Your task to perform on an android device: Add "apple airpods" to the cart on newegg Image 0: 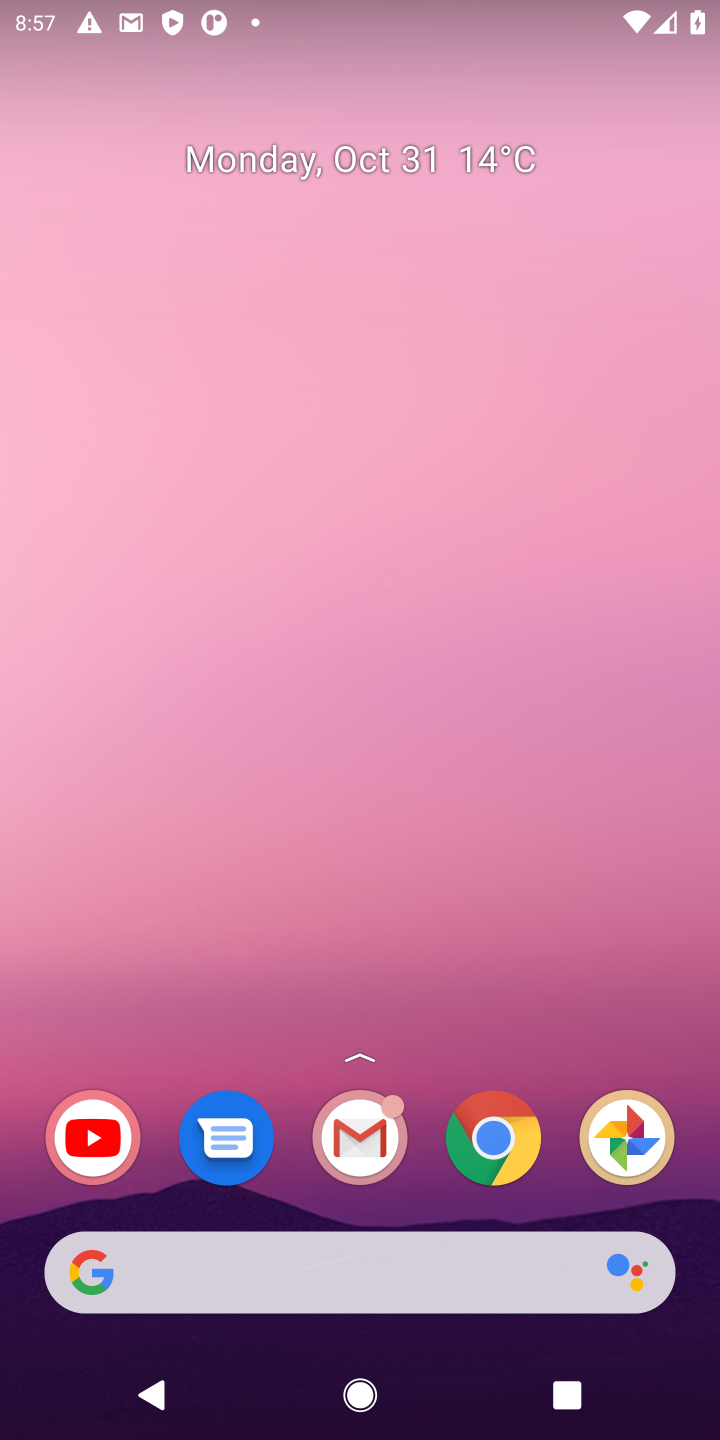
Step 0: click (494, 1150)
Your task to perform on an android device: Add "apple airpods" to the cart on newegg Image 1: 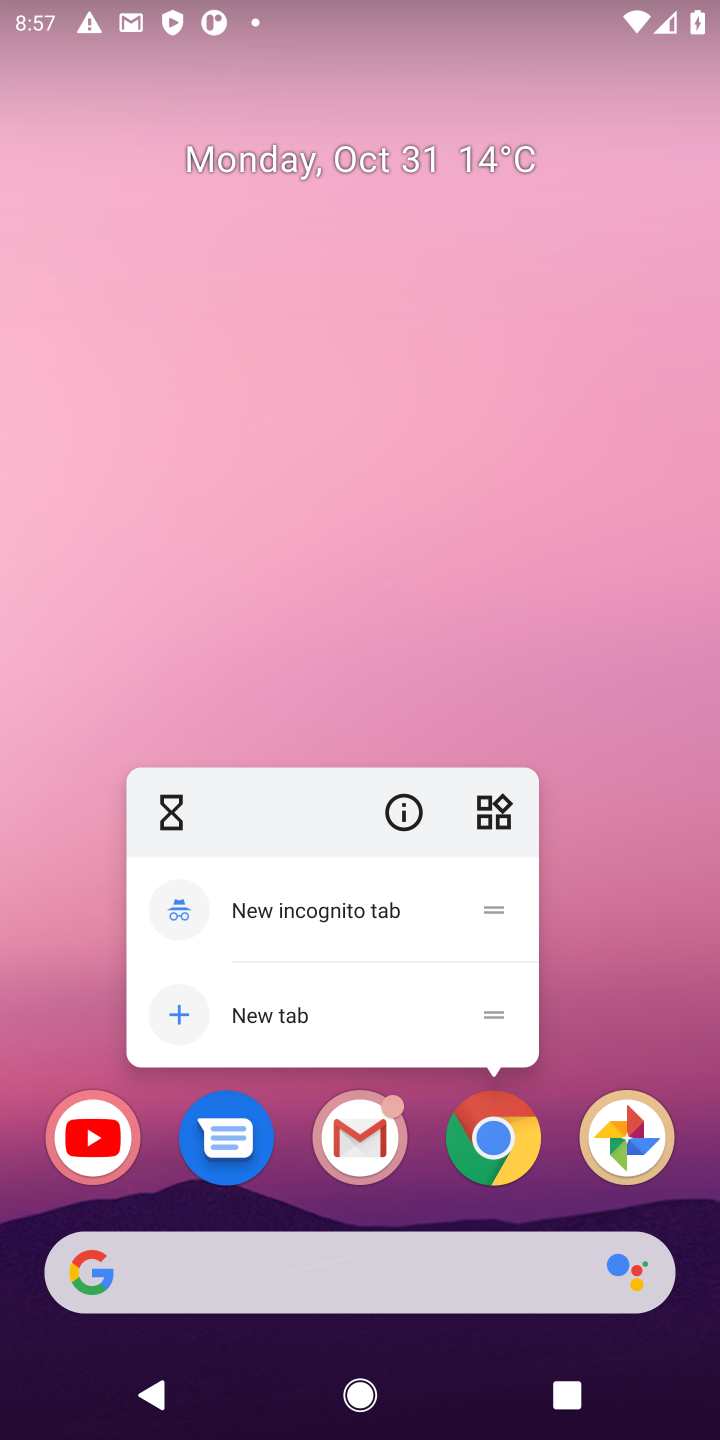
Step 1: click (496, 1135)
Your task to perform on an android device: Add "apple airpods" to the cart on newegg Image 2: 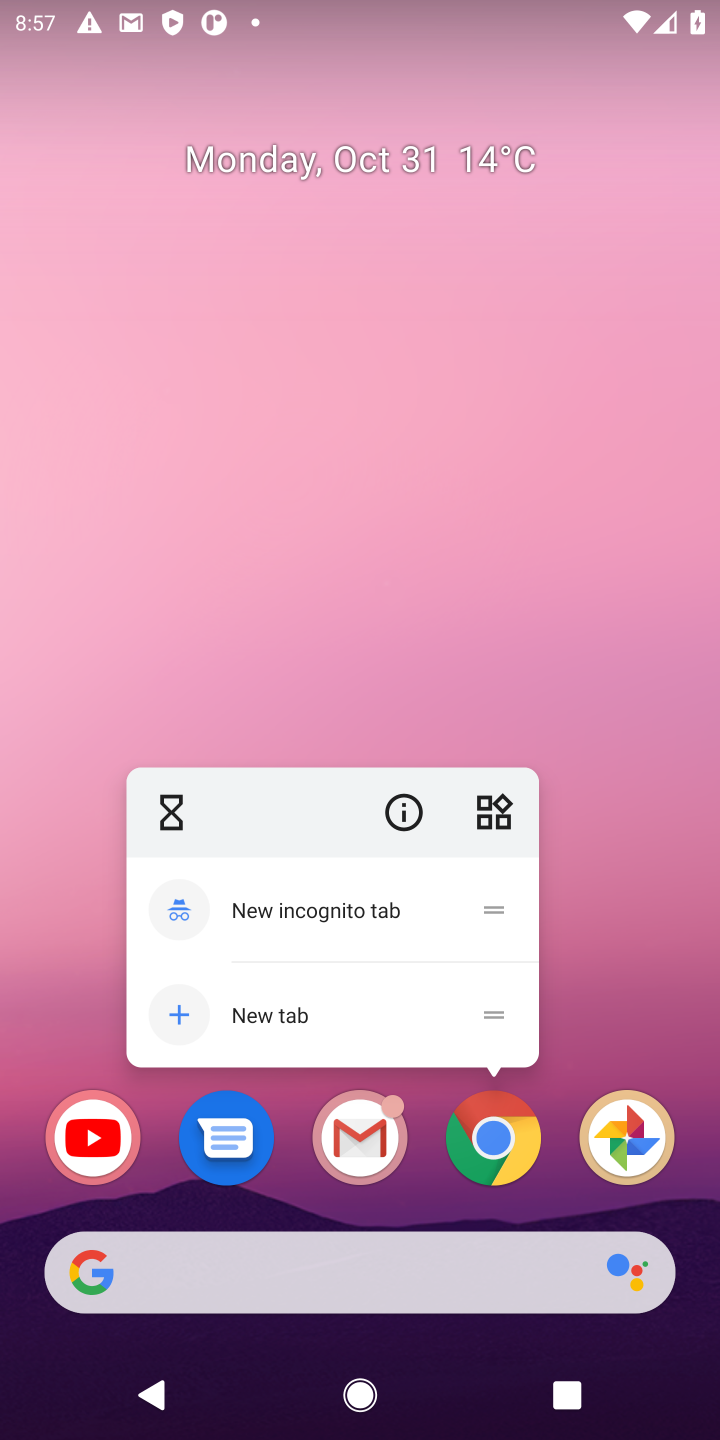
Step 2: click (505, 1119)
Your task to perform on an android device: Add "apple airpods" to the cart on newegg Image 3: 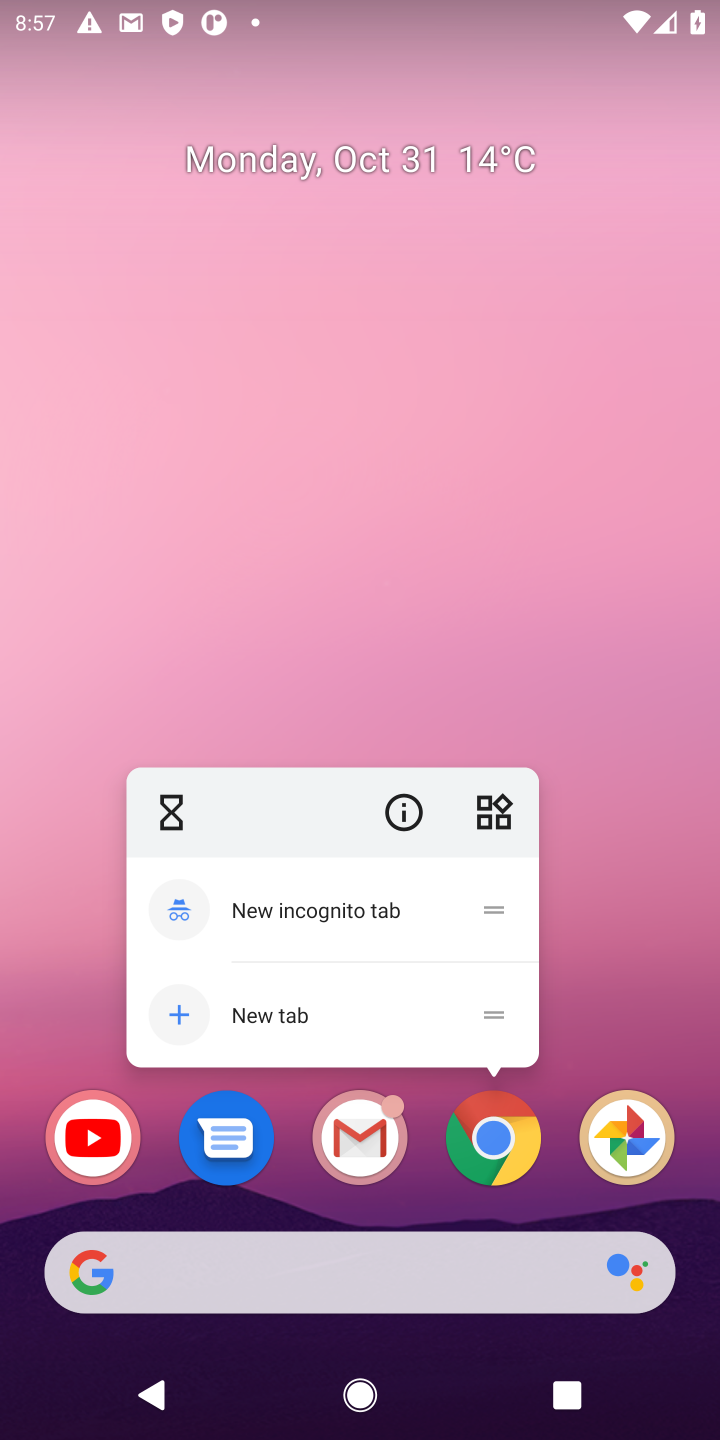
Step 3: press home button
Your task to perform on an android device: Add "apple airpods" to the cart on newegg Image 4: 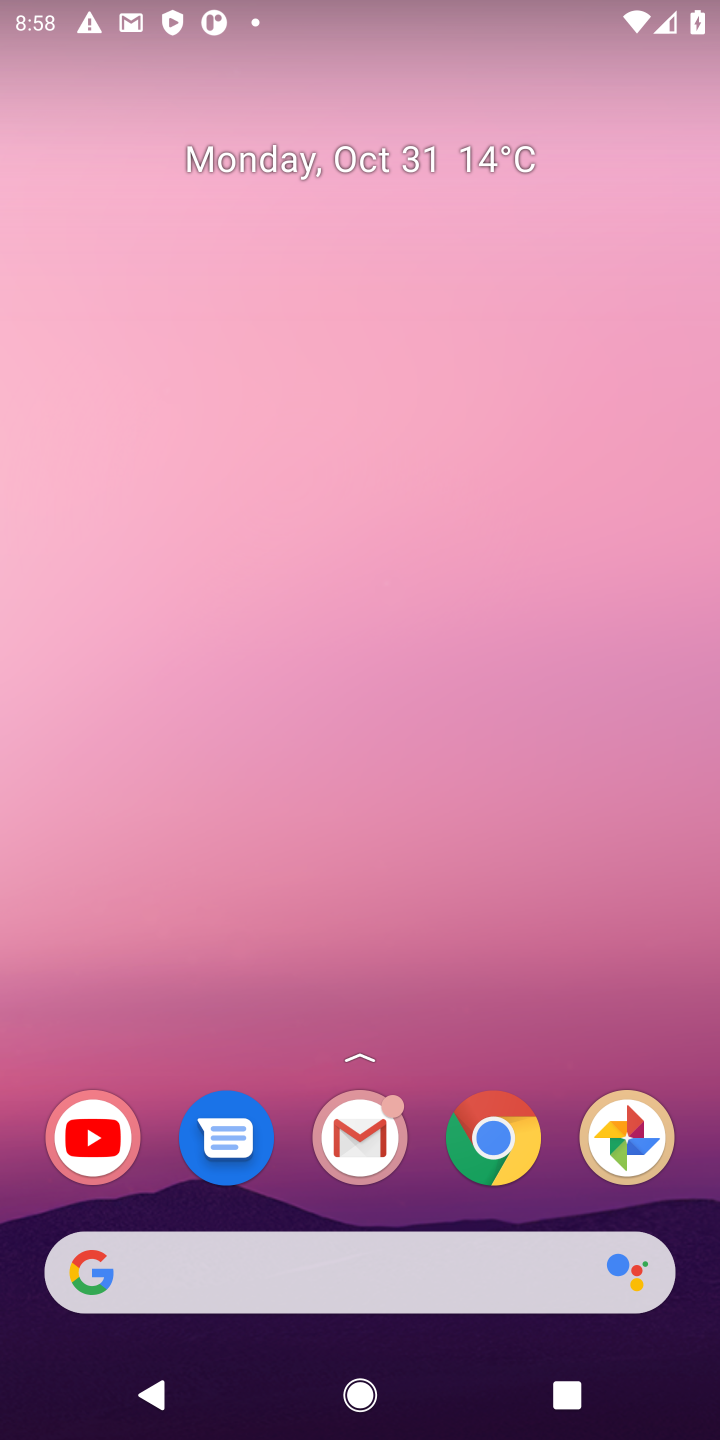
Step 4: press home button
Your task to perform on an android device: Add "apple airpods" to the cart on newegg Image 5: 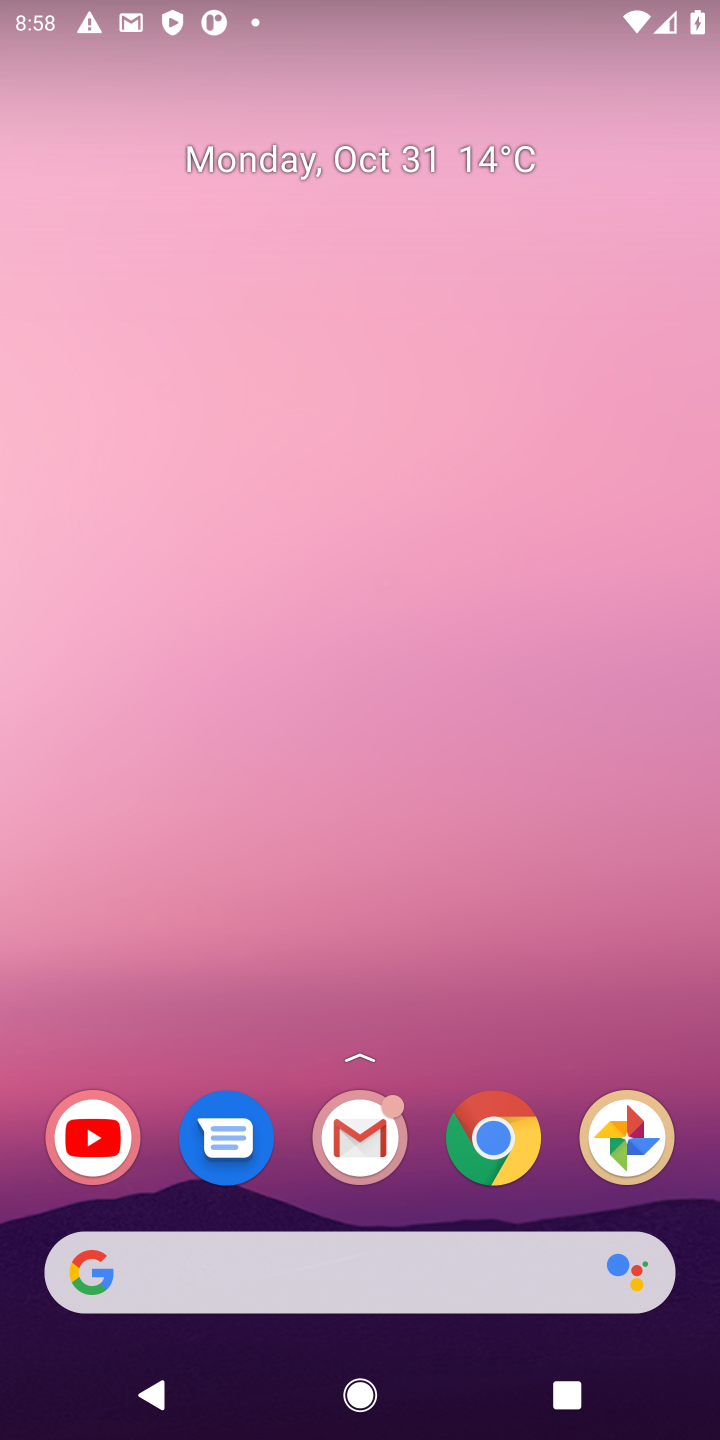
Step 5: click (480, 1148)
Your task to perform on an android device: Add "apple airpods" to the cart on newegg Image 6: 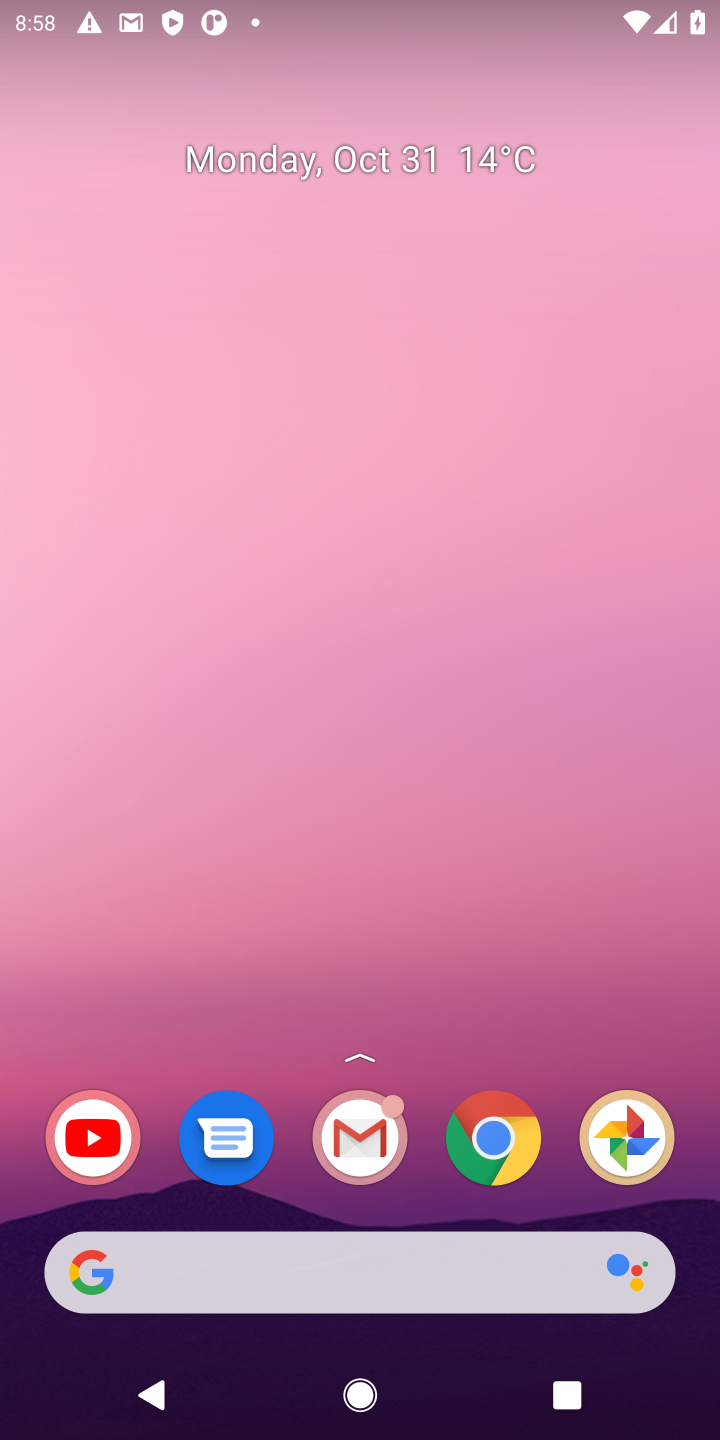
Step 6: click (482, 1142)
Your task to perform on an android device: Add "apple airpods" to the cart on newegg Image 7: 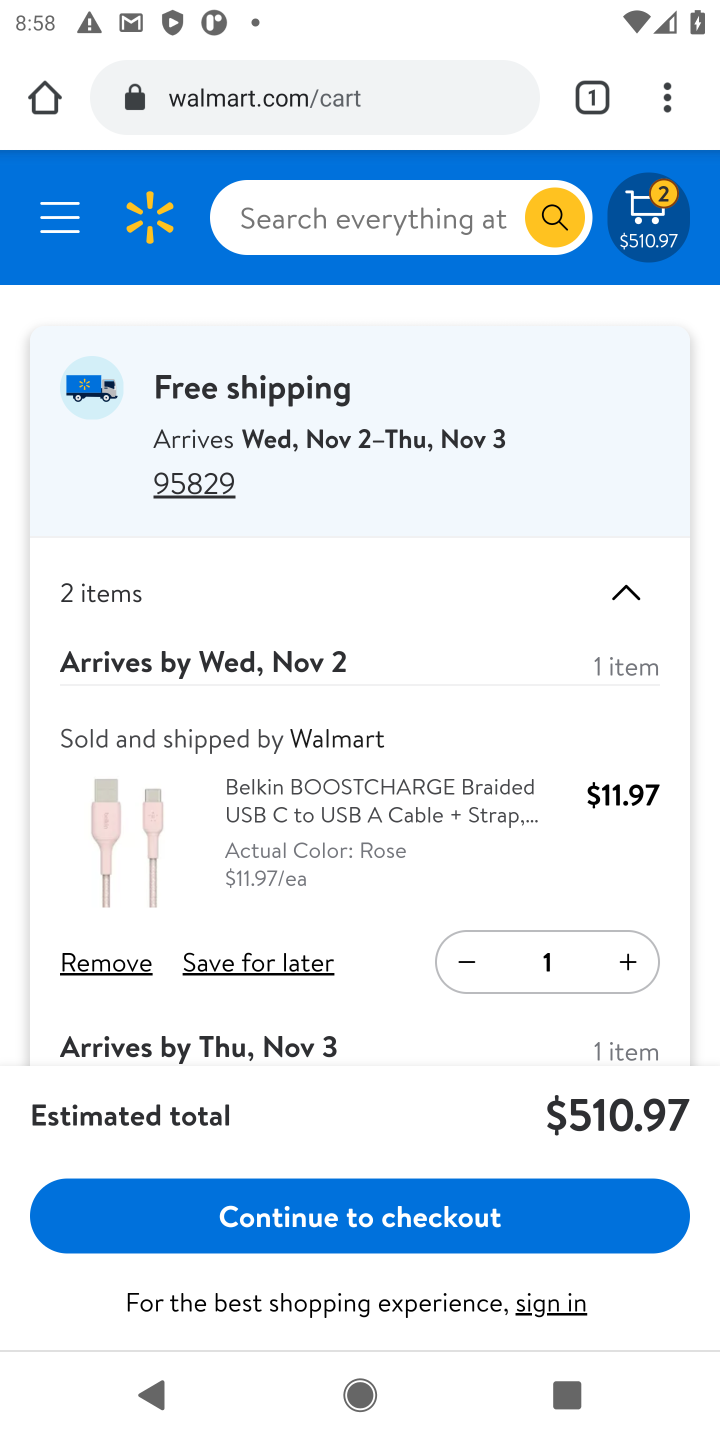
Step 7: click (298, 214)
Your task to perform on an android device: Add "apple airpods" to the cart on newegg Image 8: 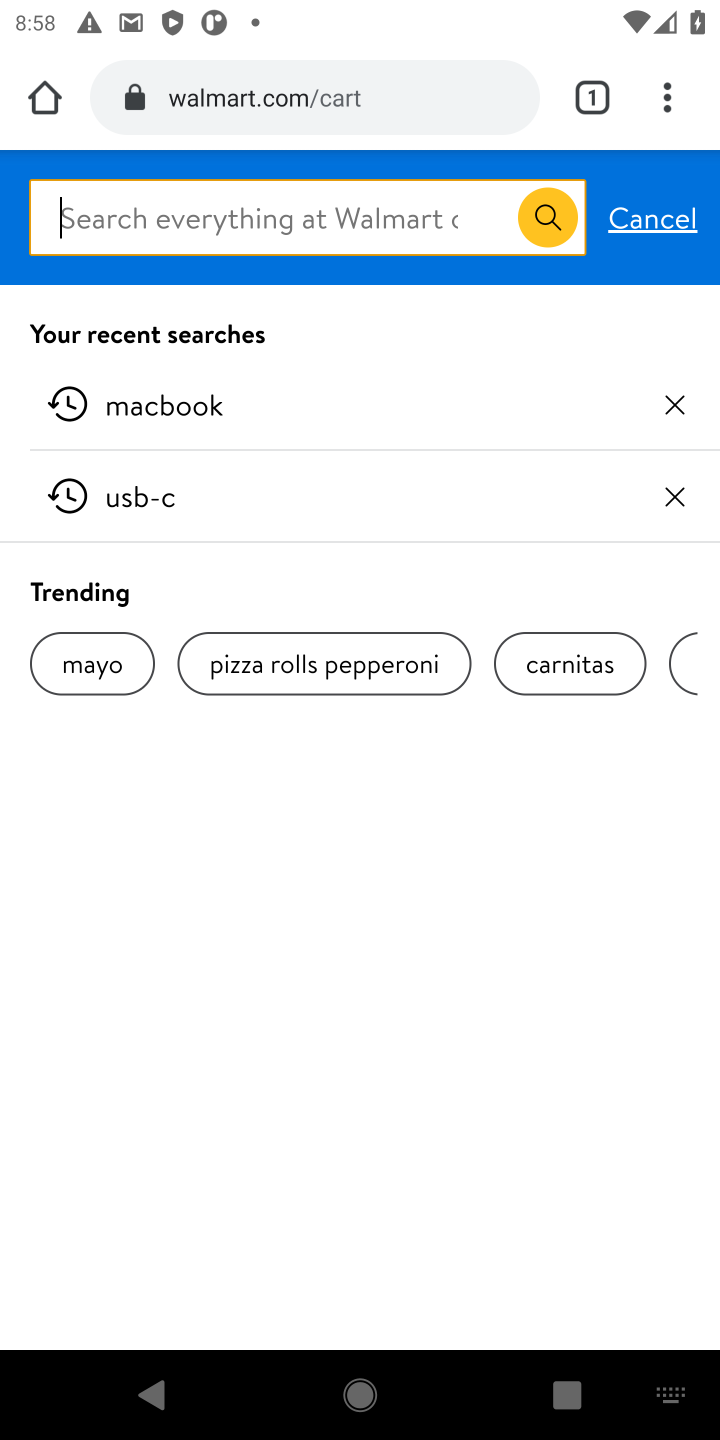
Step 8: click (262, 92)
Your task to perform on an android device: Add "apple airpods" to the cart on newegg Image 9: 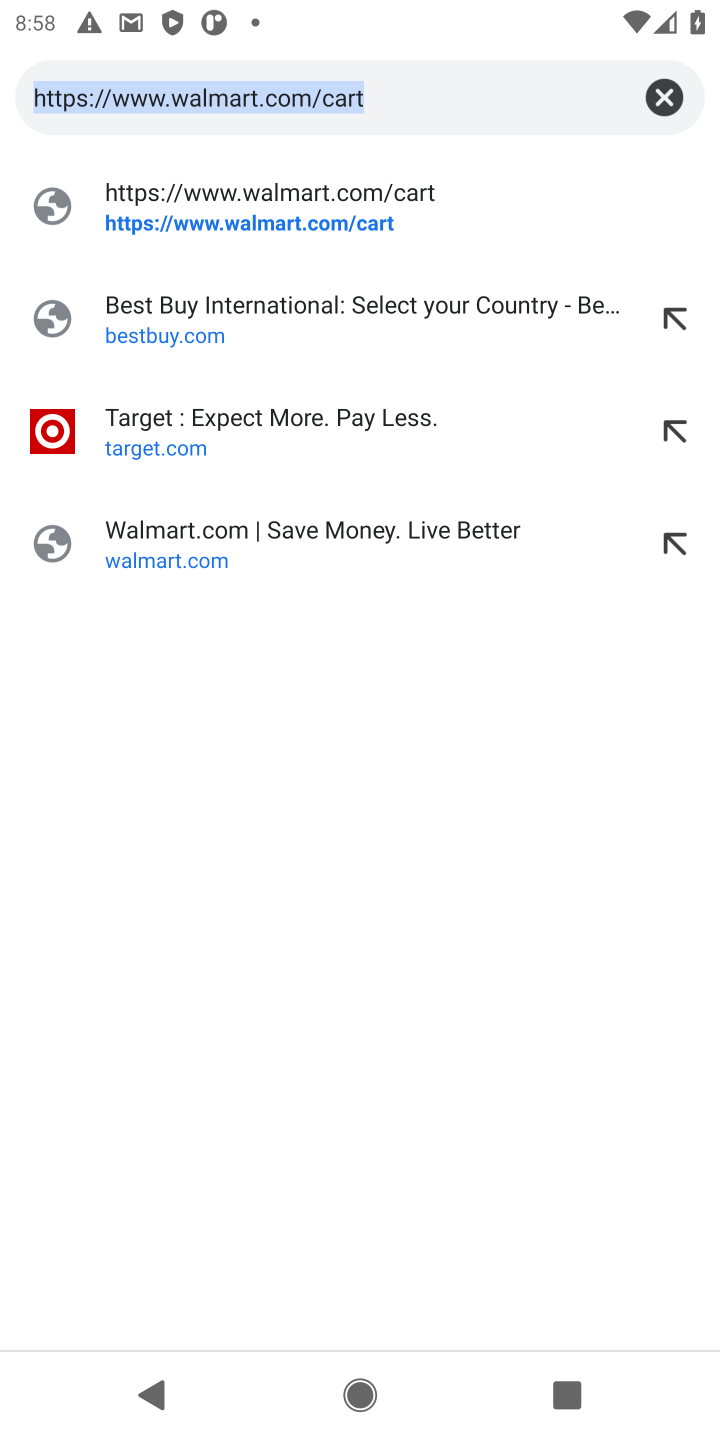
Step 9: click (663, 95)
Your task to perform on an android device: Add "apple airpods" to the cart on newegg Image 10: 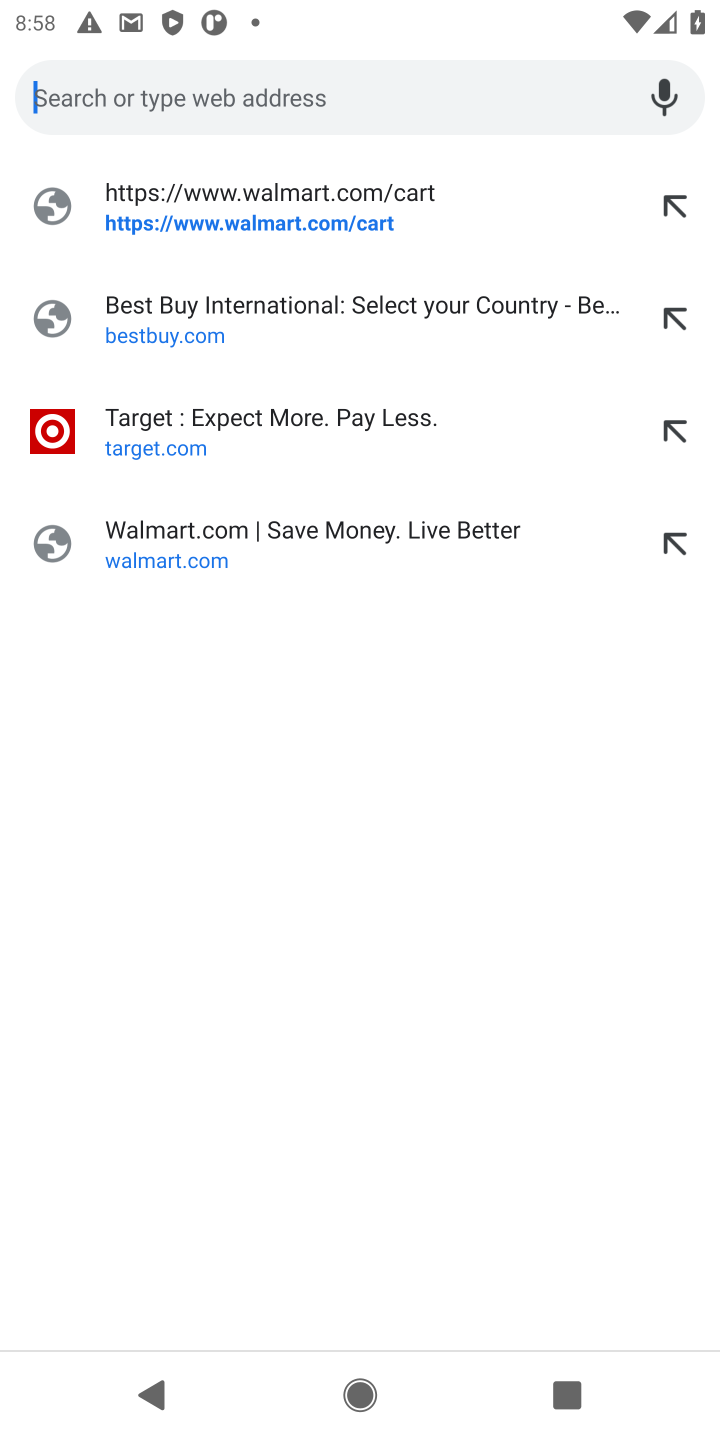
Step 10: type "newegg"
Your task to perform on an android device: Add "apple airpods" to the cart on newegg Image 11: 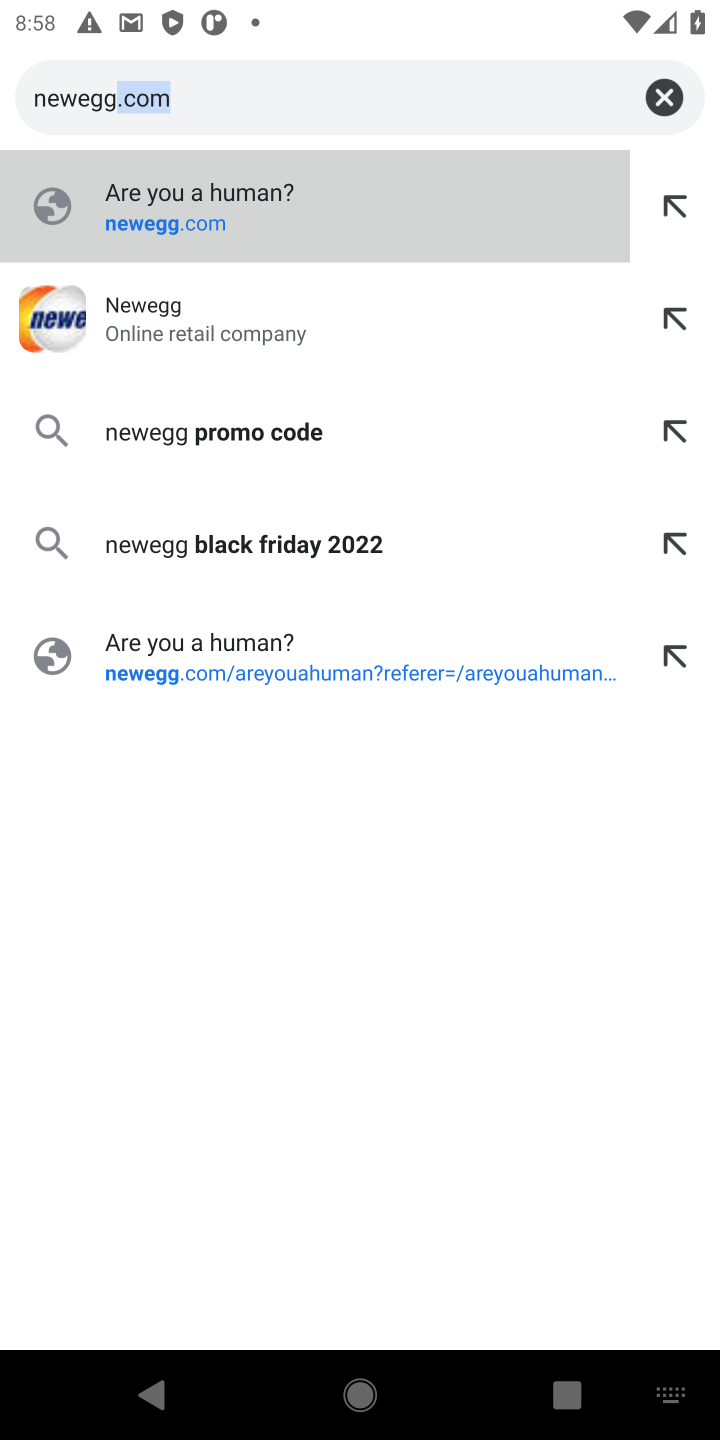
Step 11: click (137, 319)
Your task to perform on an android device: Add "apple airpods" to the cart on newegg Image 12: 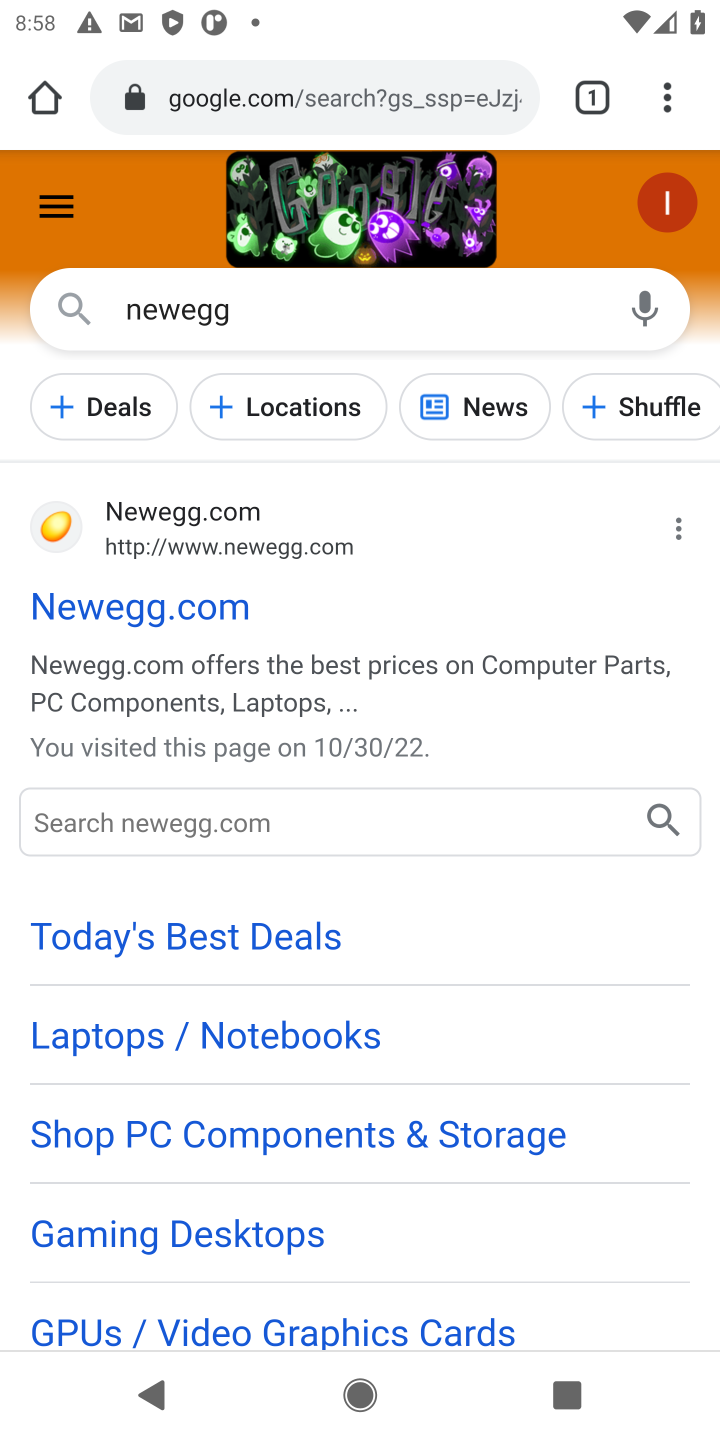
Step 12: click (132, 612)
Your task to perform on an android device: Add "apple airpods" to the cart on newegg Image 13: 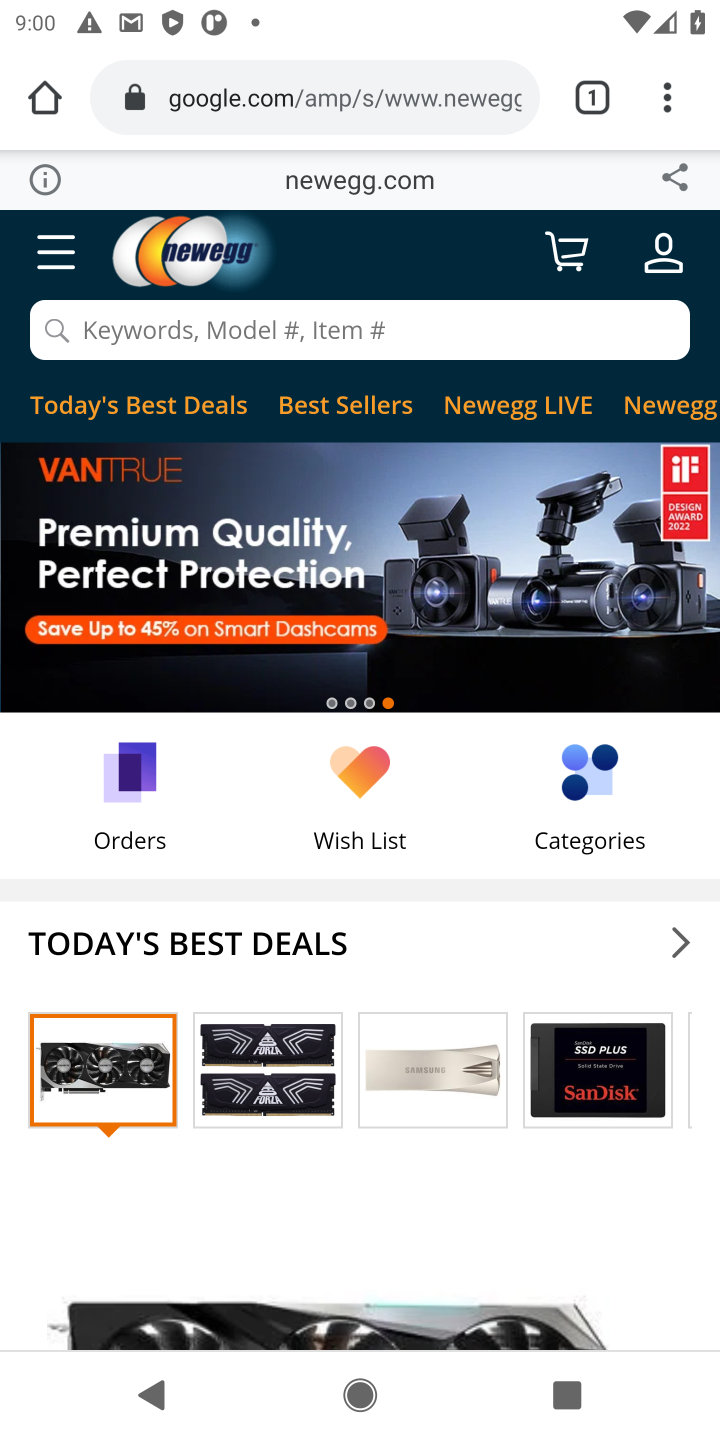
Step 13: click (260, 327)
Your task to perform on an android device: Add "apple airpods" to the cart on newegg Image 14: 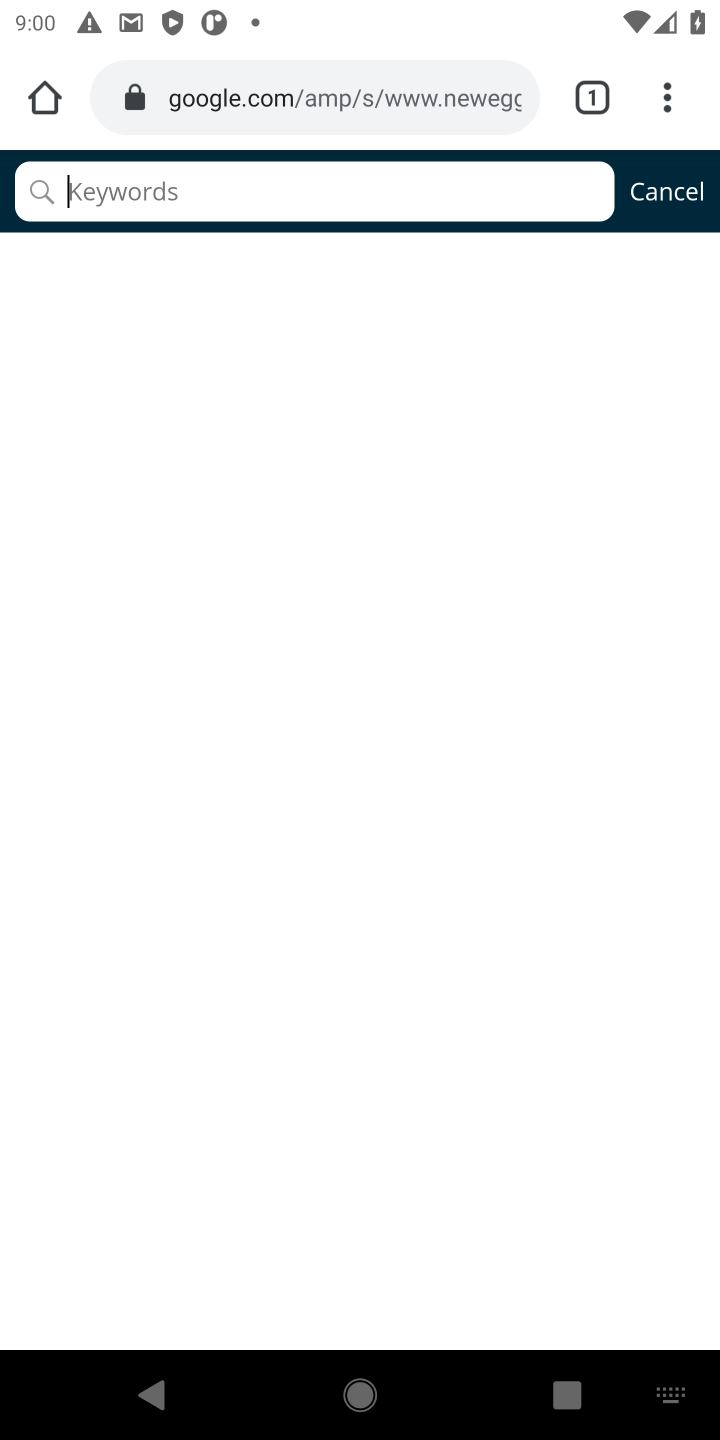
Step 14: type "apple airpods"
Your task to perform on an android device: Add "apple airpods" to the cart on newegg Image 15: 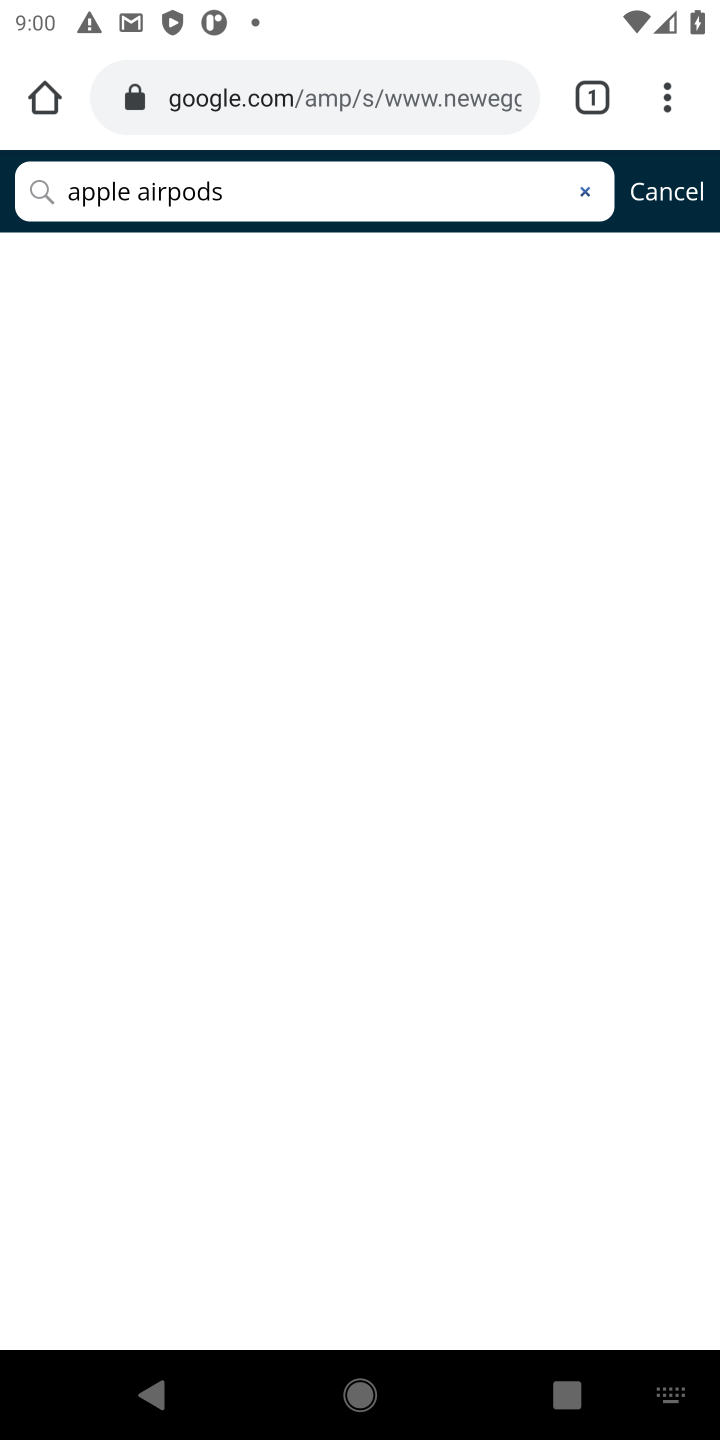
Step 15: press back button
Your task to perform on an android device: Add "apple airpods" to the cart on newegg Image 16: 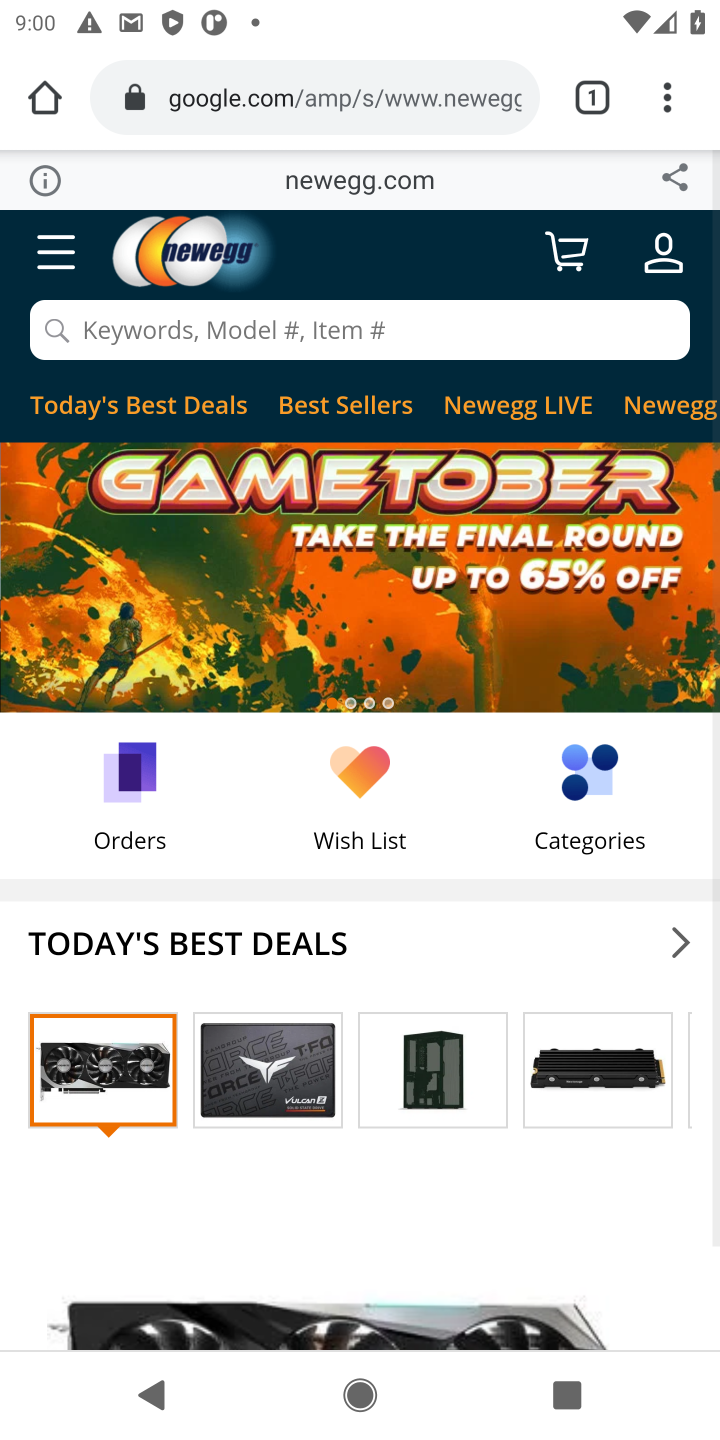
Step 16: click (137, 320)
Your task to perform on an android device: Add "apple airpods" to the cart on newegg Image 17: 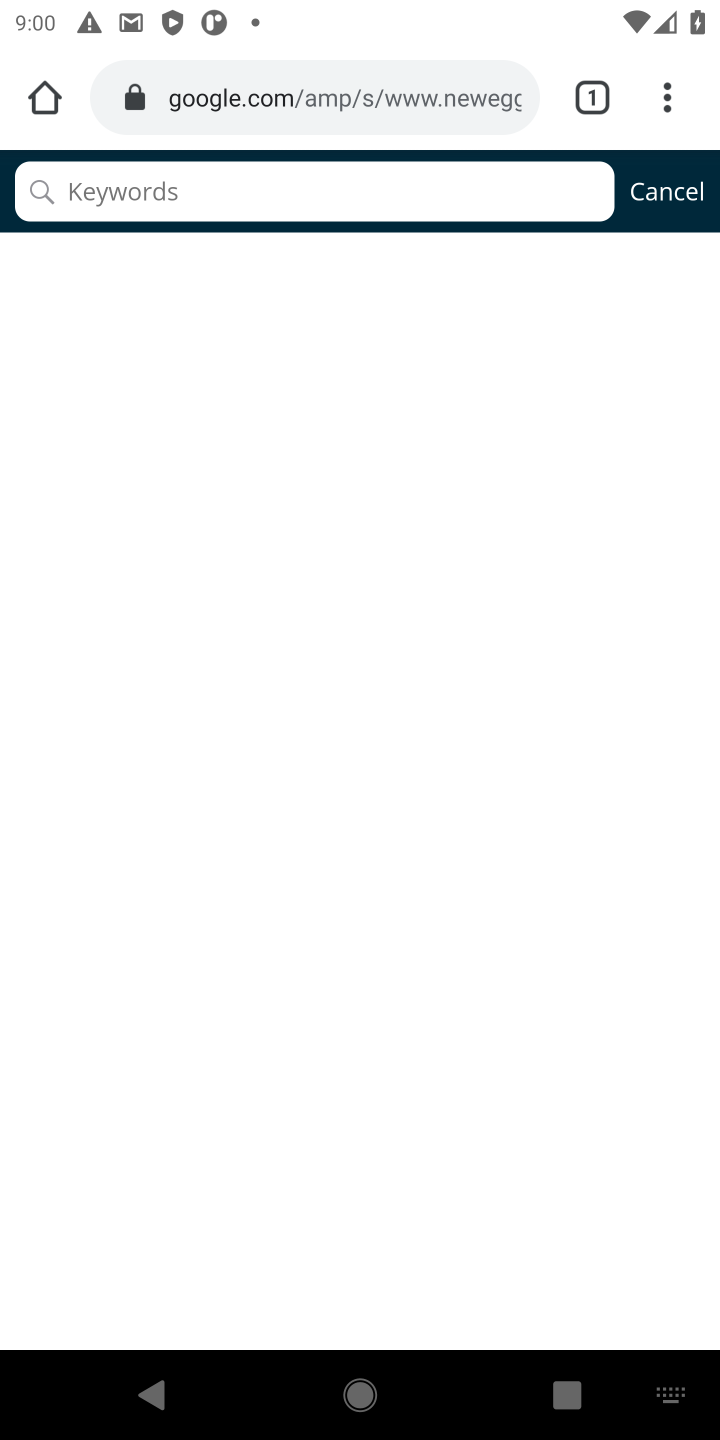
Step 17: type "apple  ai`"
Your task to perform on an android device: Add "apple airpods" to the cart on newegg Image 18: 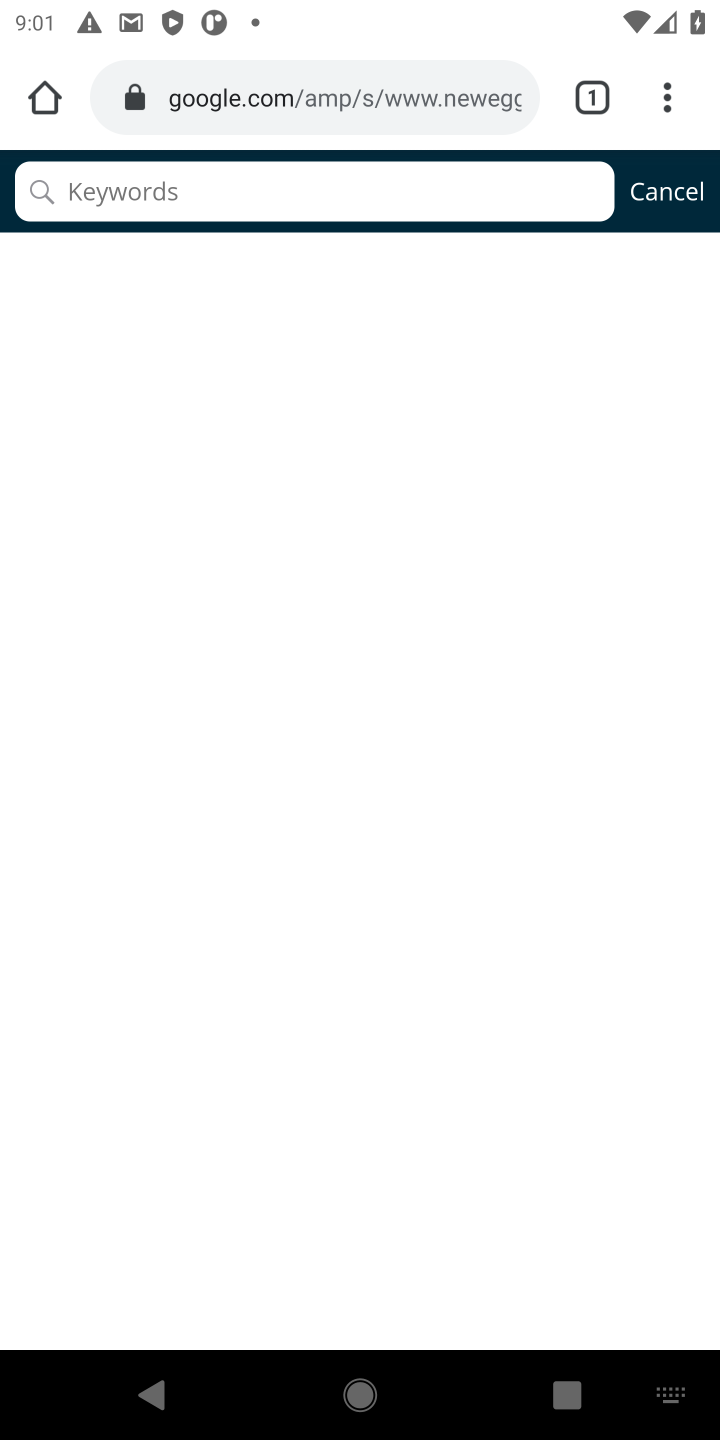
Step 18: type "apple airpods"
Your task to perform on an android device: Add "apple airpods" to the cart on newegg Image 19: 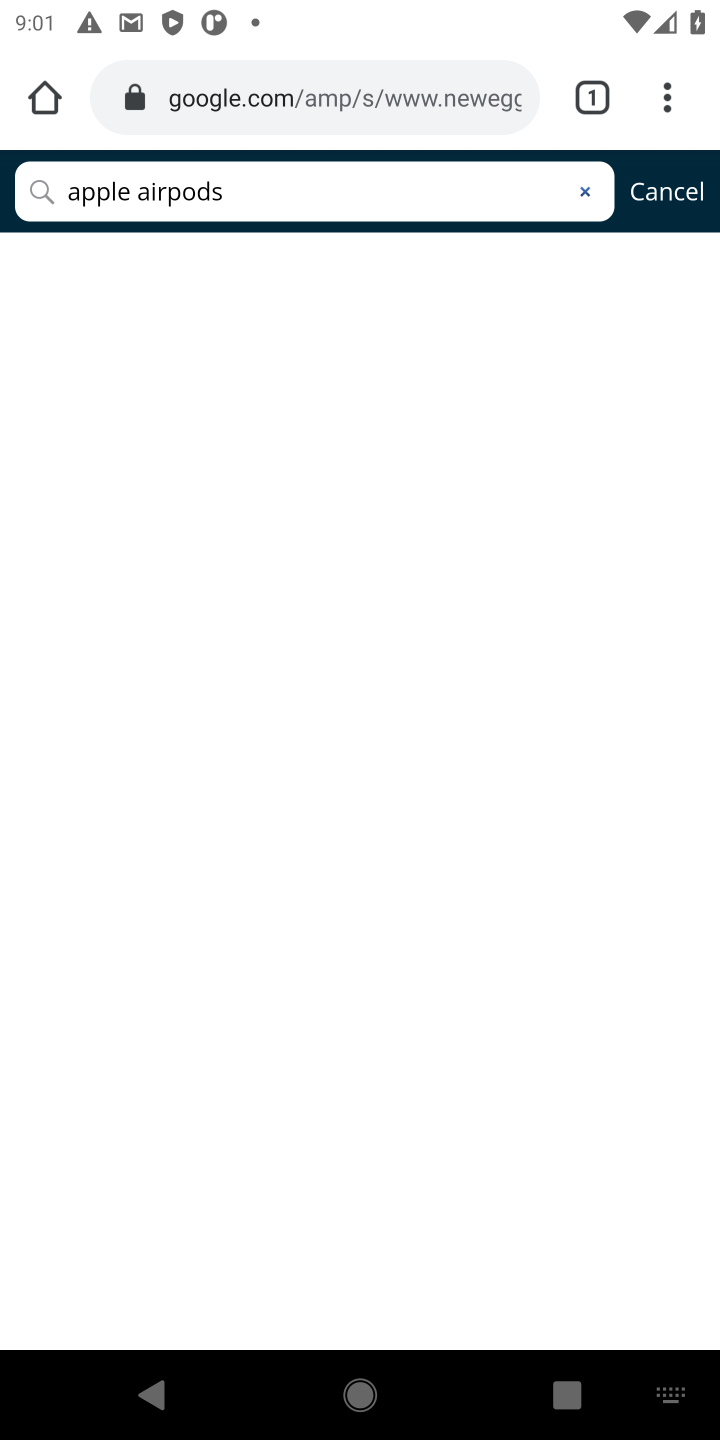
Step 19: click (449, 196)
Your task to perform on an android device: Add "apple airpods" to the cart on newegg Image 20: 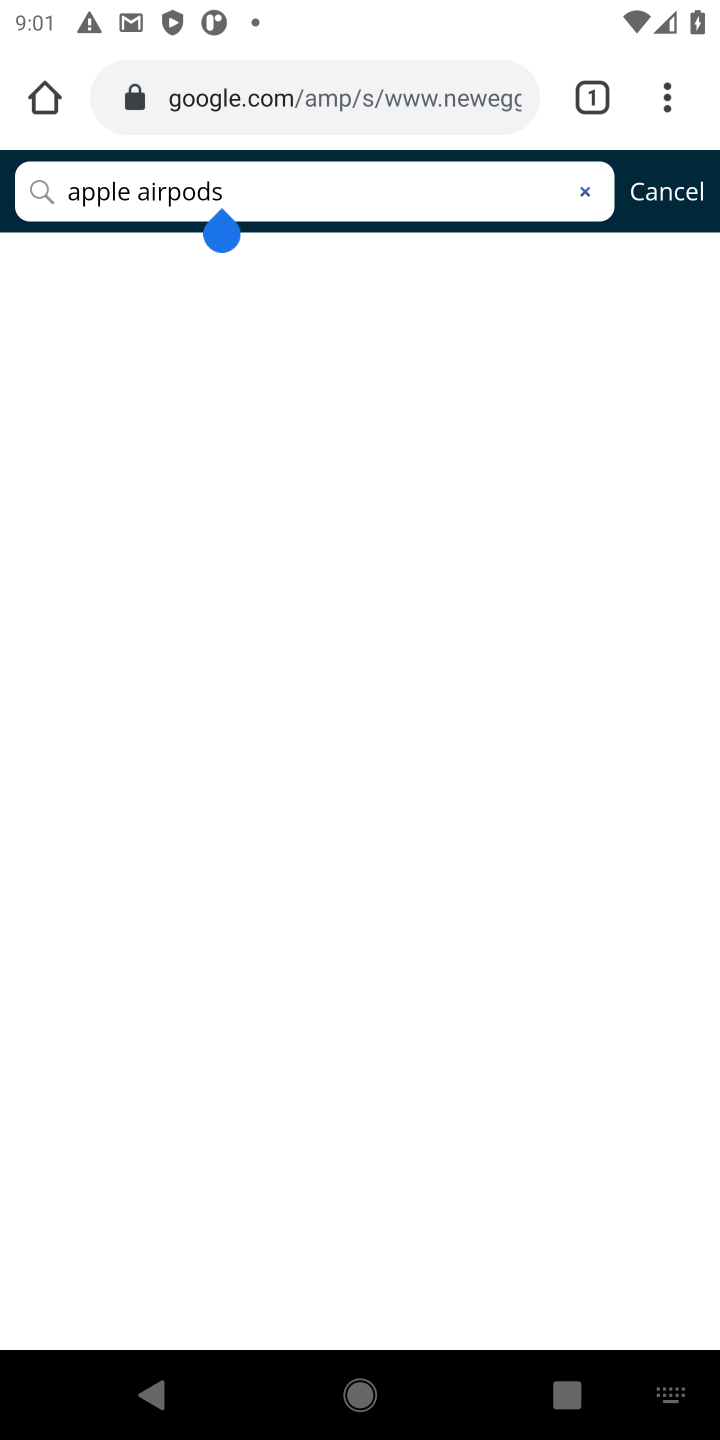
Step 20: click (428, 194)
Your task to perform on an android device: Add "apple airpods" to the cart on newegg Image 21: 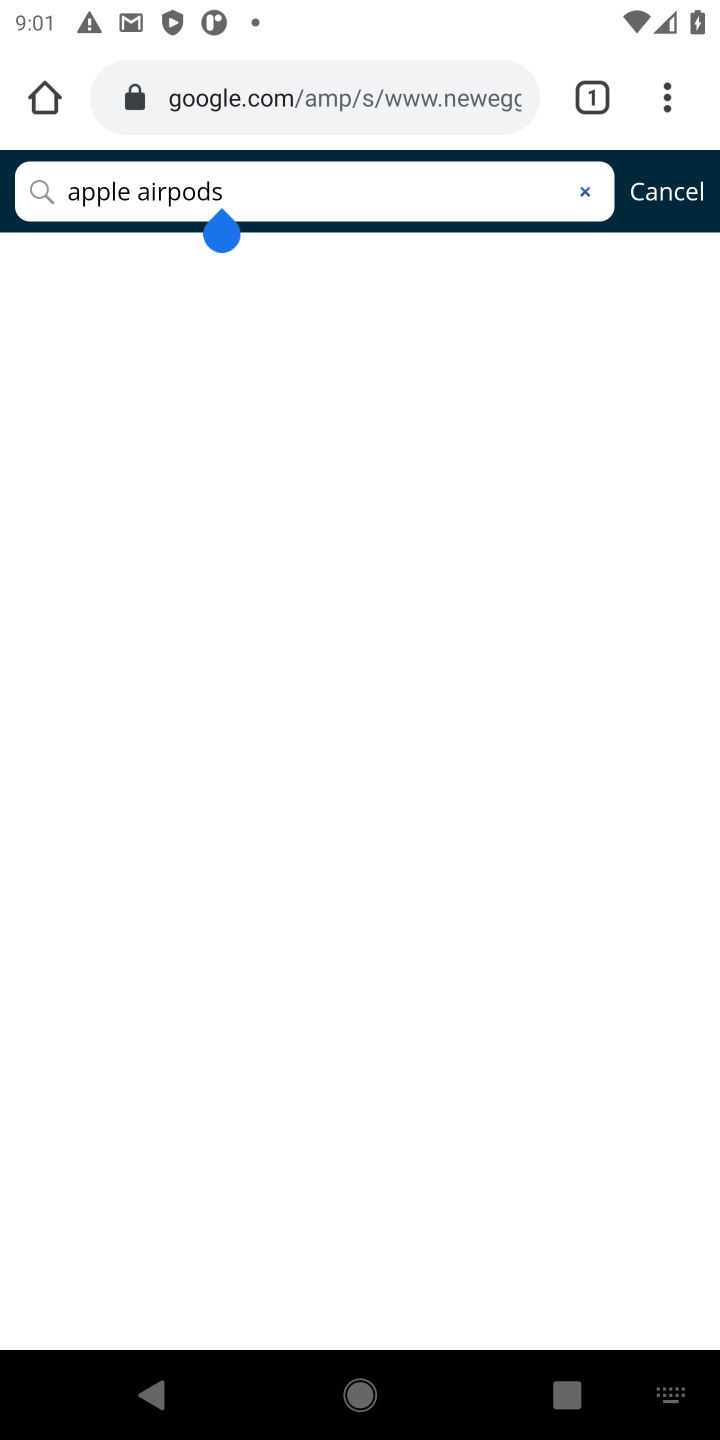
Step 21: press back button
Your task to perform on an android device: Add "apple airpods" to the cart on newegg Image 22: 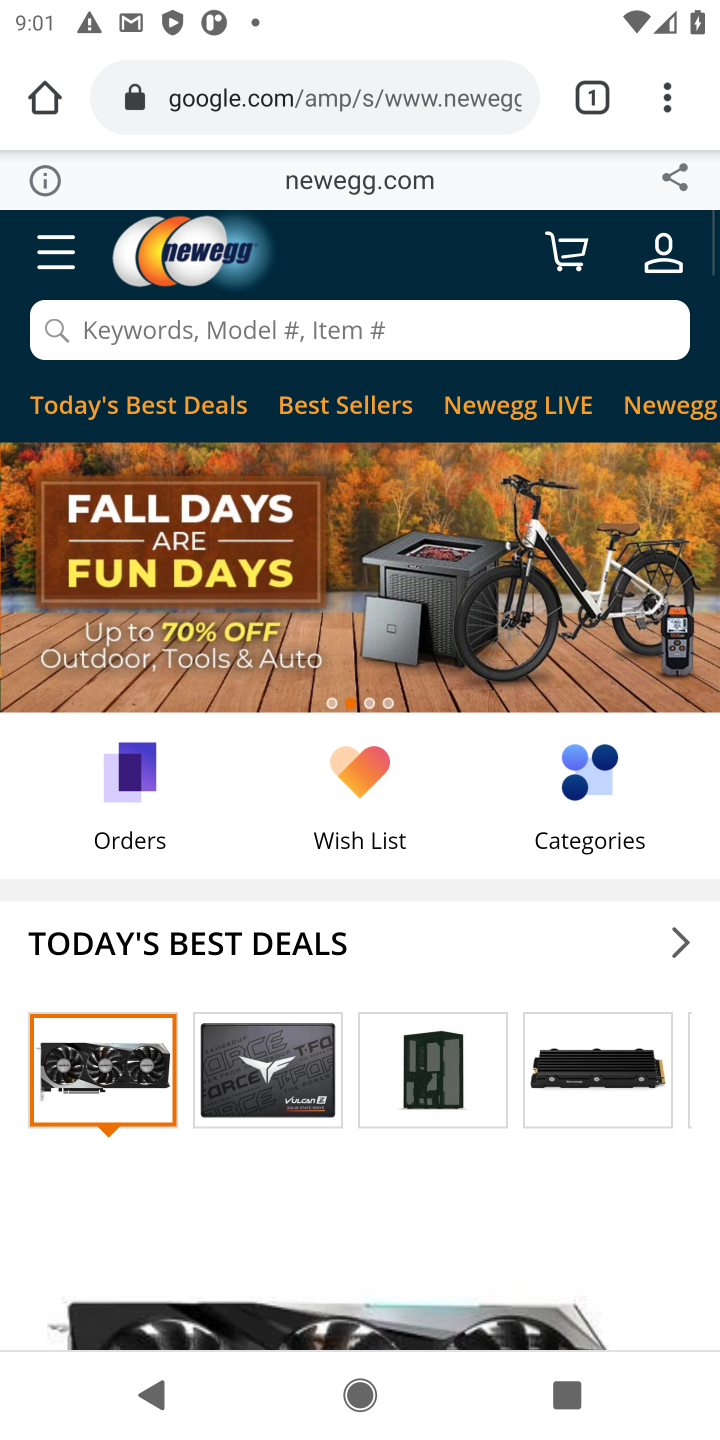
Step 22: drag from (377, 976) to (343, 507)
Your task to perform on an android device: Add "apple airpods" to the cart on newegg Image 23: 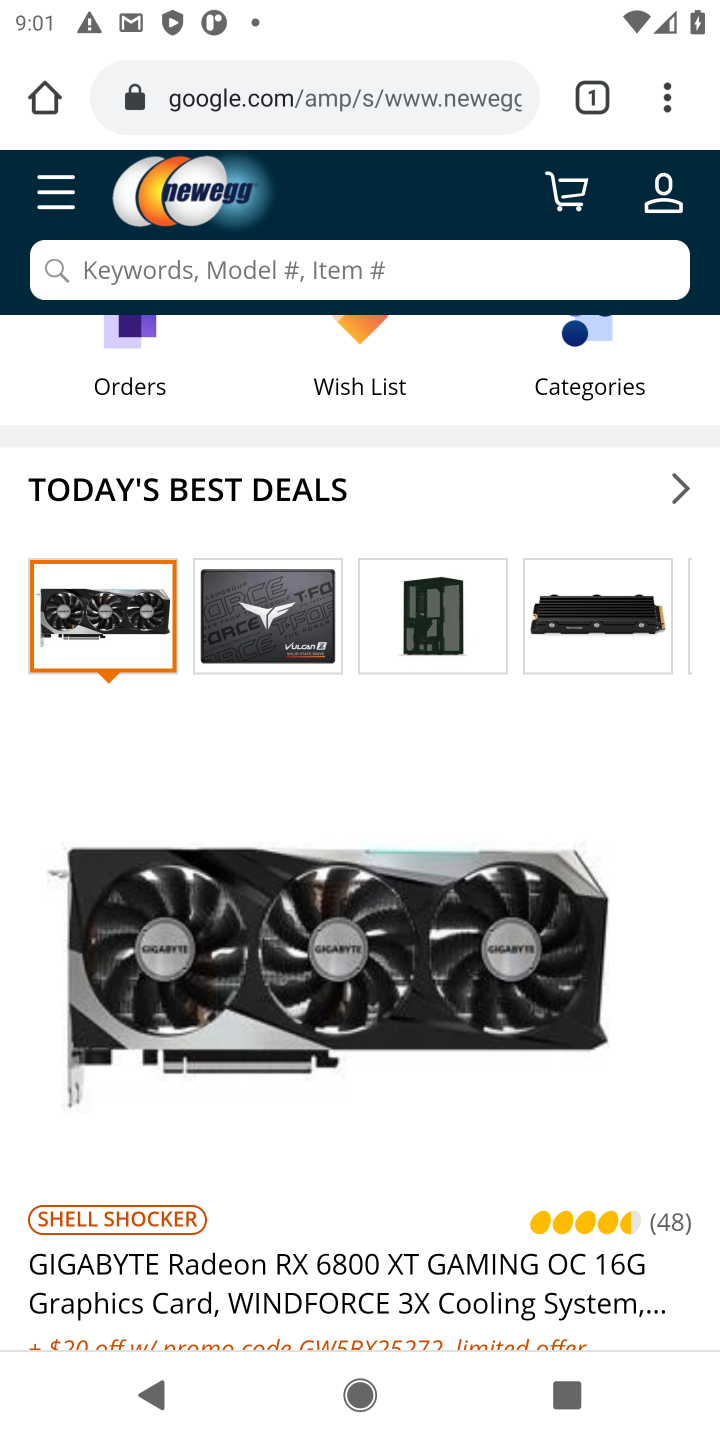
Step 23: press back button
Your task to perform on an android device: Add "apple airpods" to the cart on newegg Image 24: 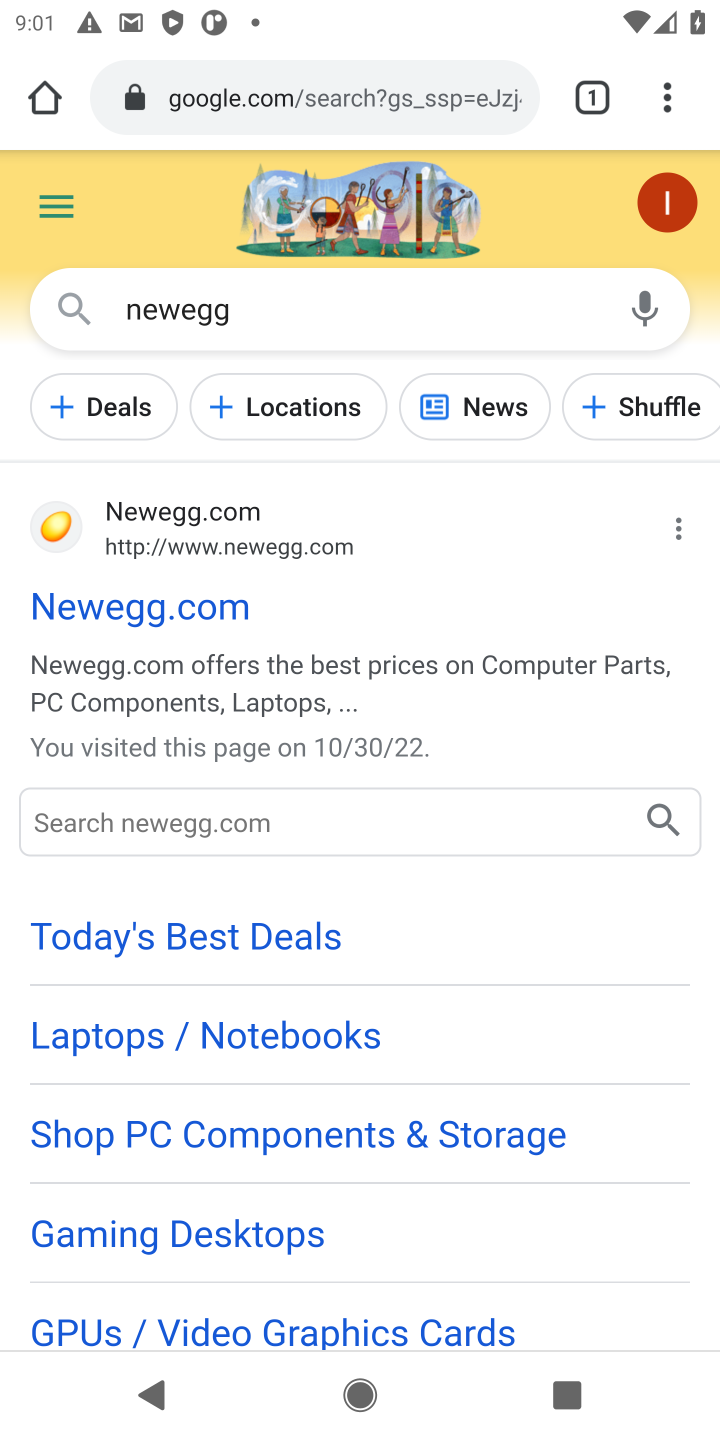
Step 24: drag from (409, 1094) to (437, 446)
Your task to perform on an android device: Add "apple airpods" to the cart on newegg Image 25: 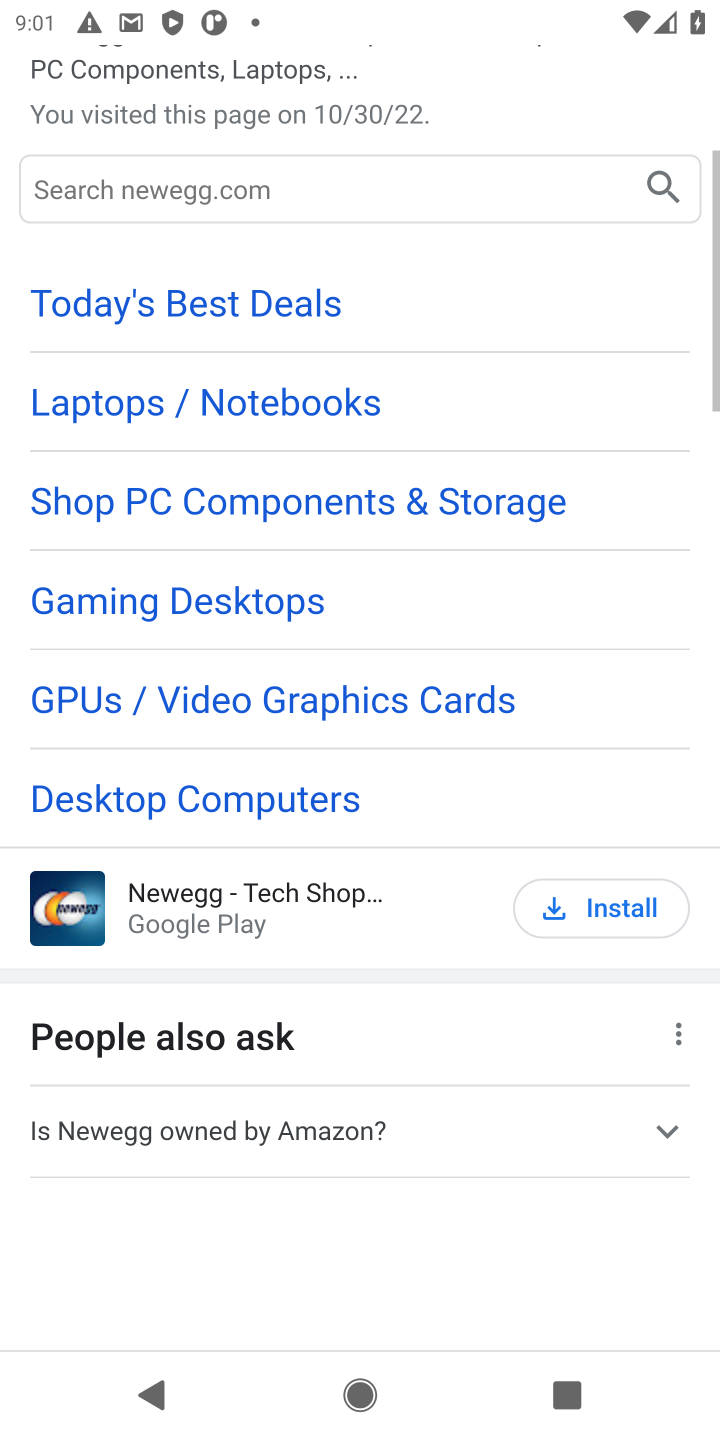
Step 25: drag from (186, 1024) to (181, 616)
Your task to perform on an android device: Add "apple airpods" to the cart on newegg Image 26: 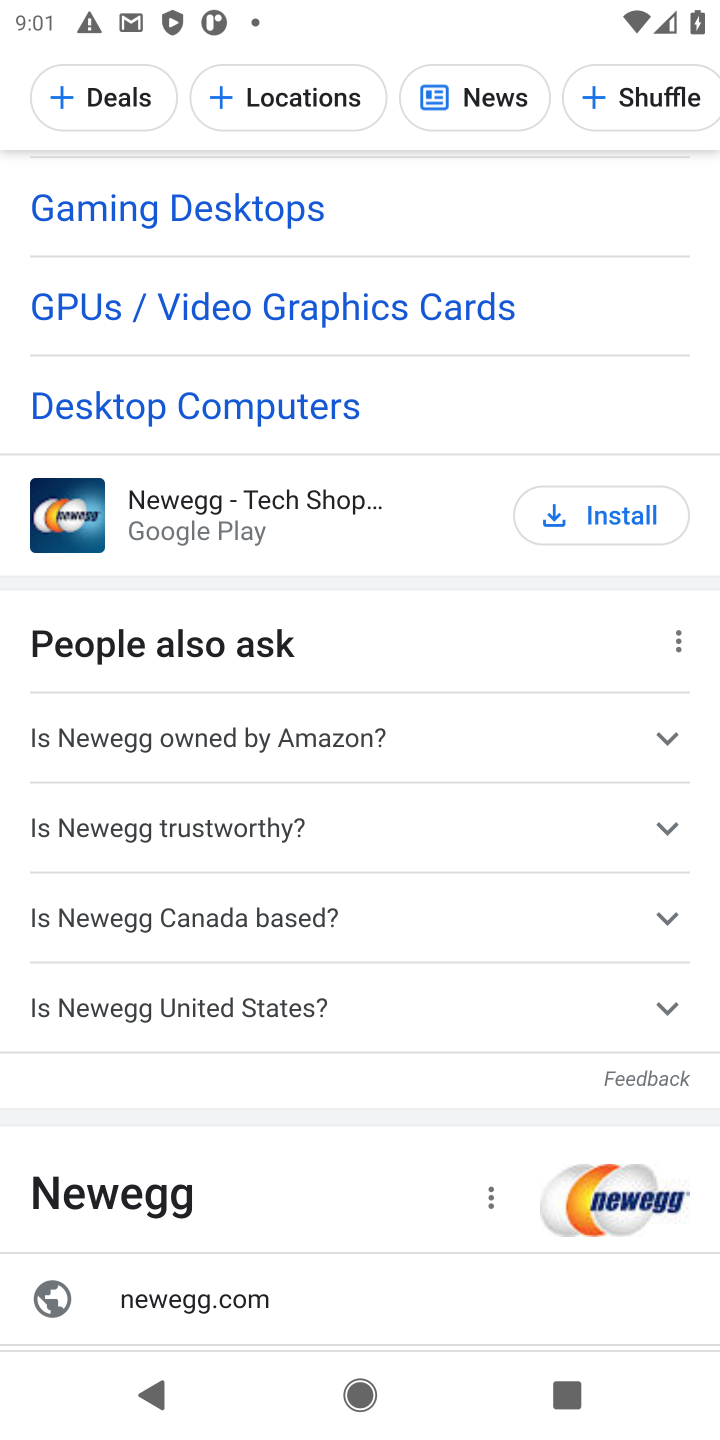
Step 26: drag from (172, 1201) to (173, 565)
Your task to perform on an android device: Add "apple airpods" to the cart on newegg Image 27: 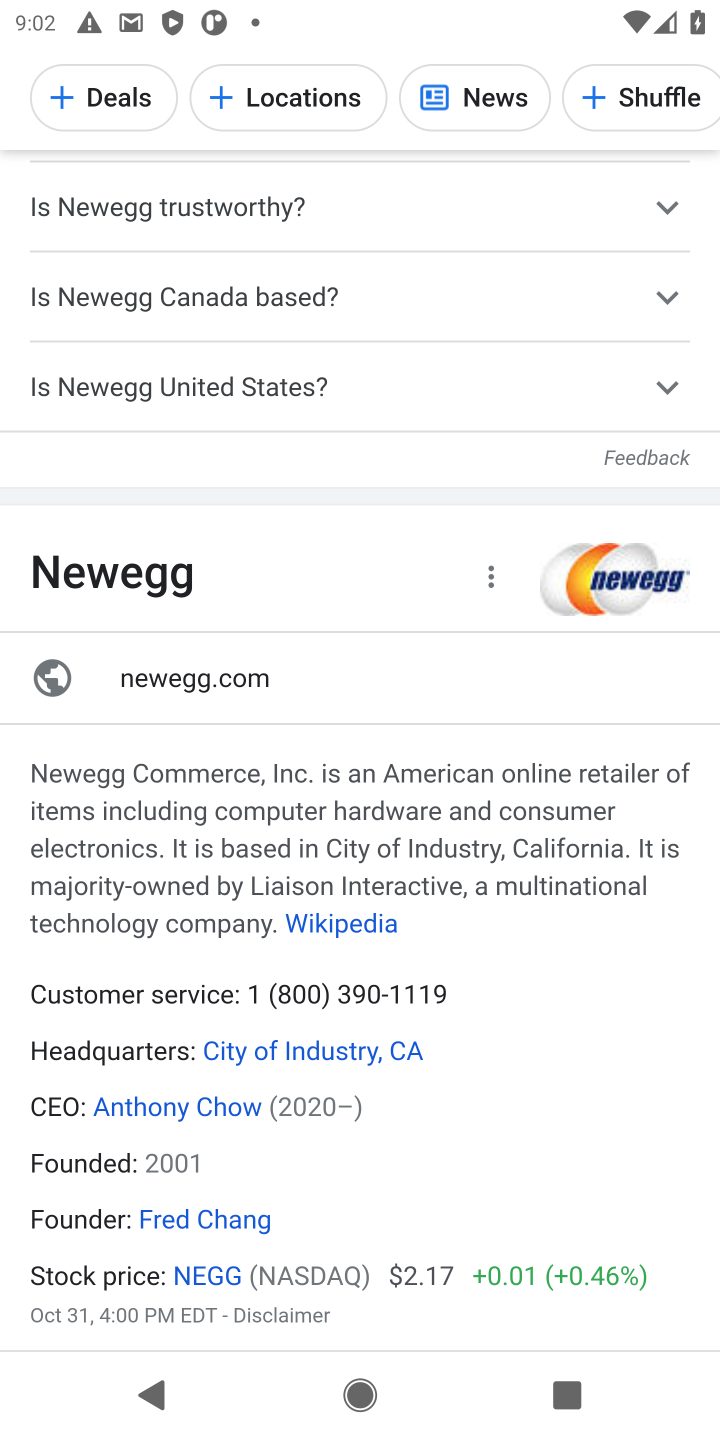
Step 27: drag from (176, 1184) to (187, 626)
Your task to perform on an android device: Add "apple airpods" to the cart on newegg Image 28: 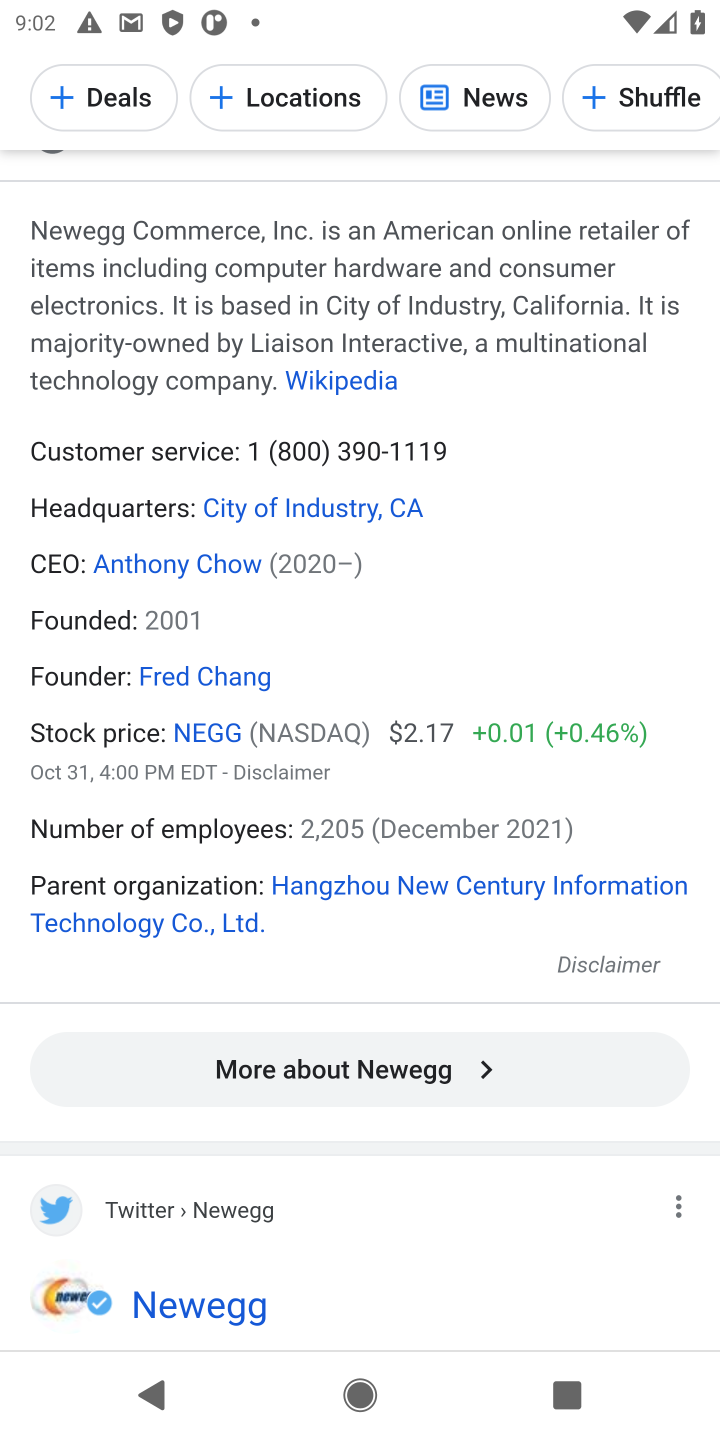
Step 28: drag from (187, 1039) to (153, 488)
Your task to perform on an android device: Add "apple airpods" to the cart on newegg Image 29: 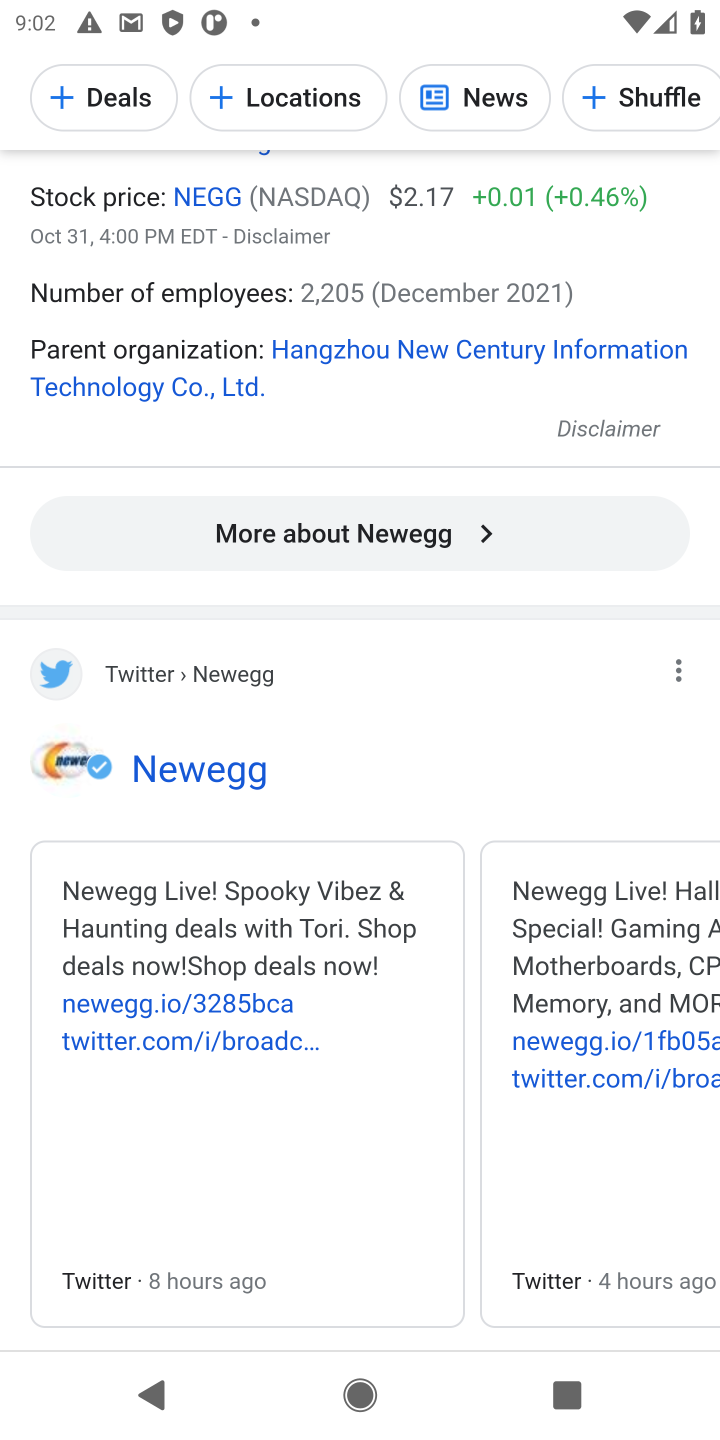
Step 29: drag from (225, 1089) to (216, 445)
Your task to perform on an android device: Add "apple airpods" to the cart on newegg Image 30: 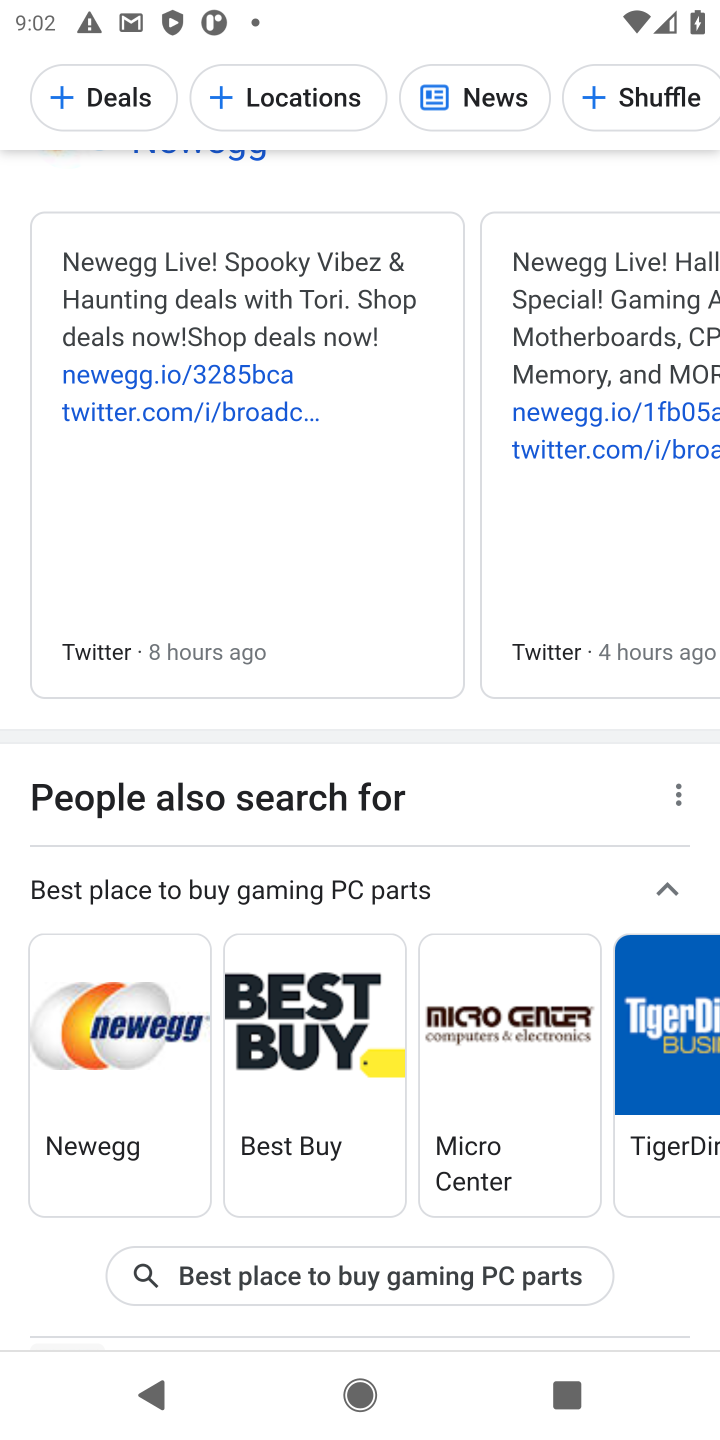
Step 30: drag from (232, 375) to (194, 1125)
Your task to perform on an android device: Add "apple airpods" to the cart on newegg Image 31: 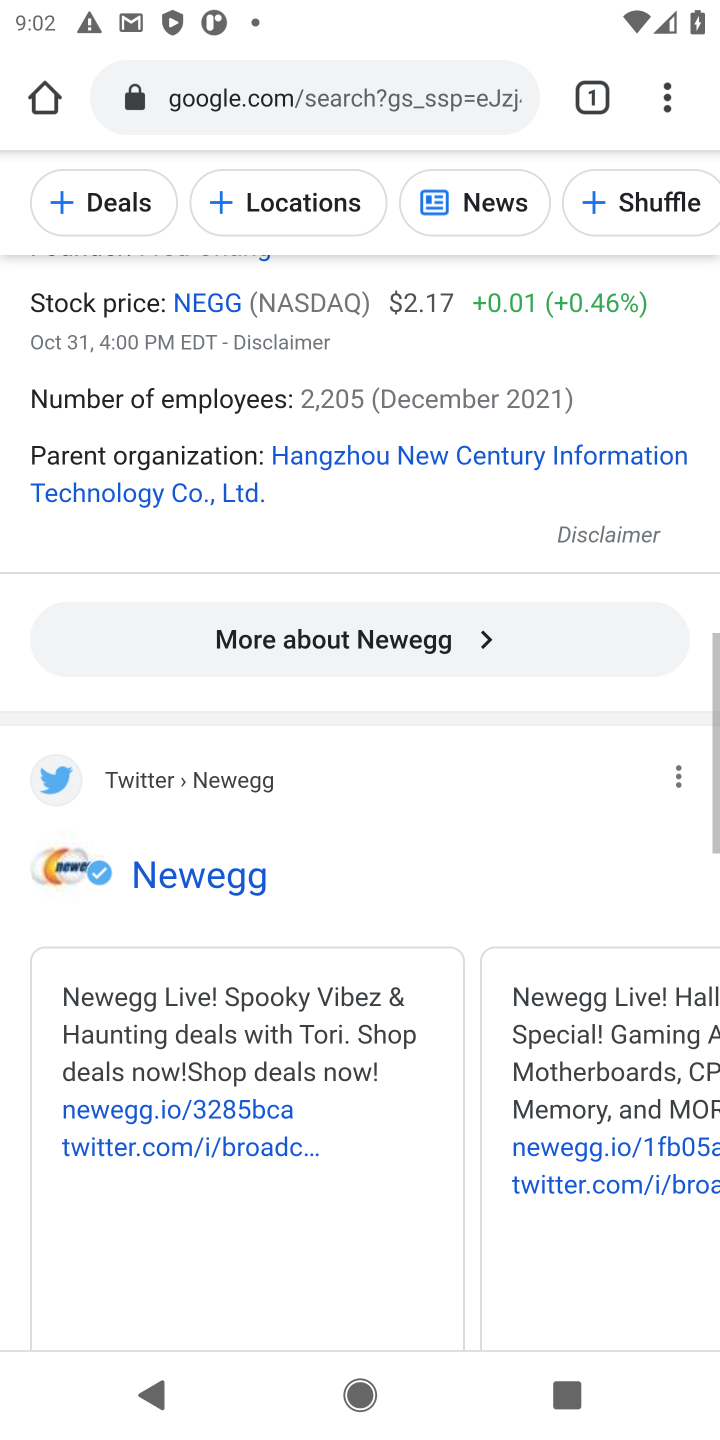
Step 31: drag from (243, 362) to (265, 876)
Your task to perform on an android device: Add "apple airpods" to the cart on newegg Image 32: 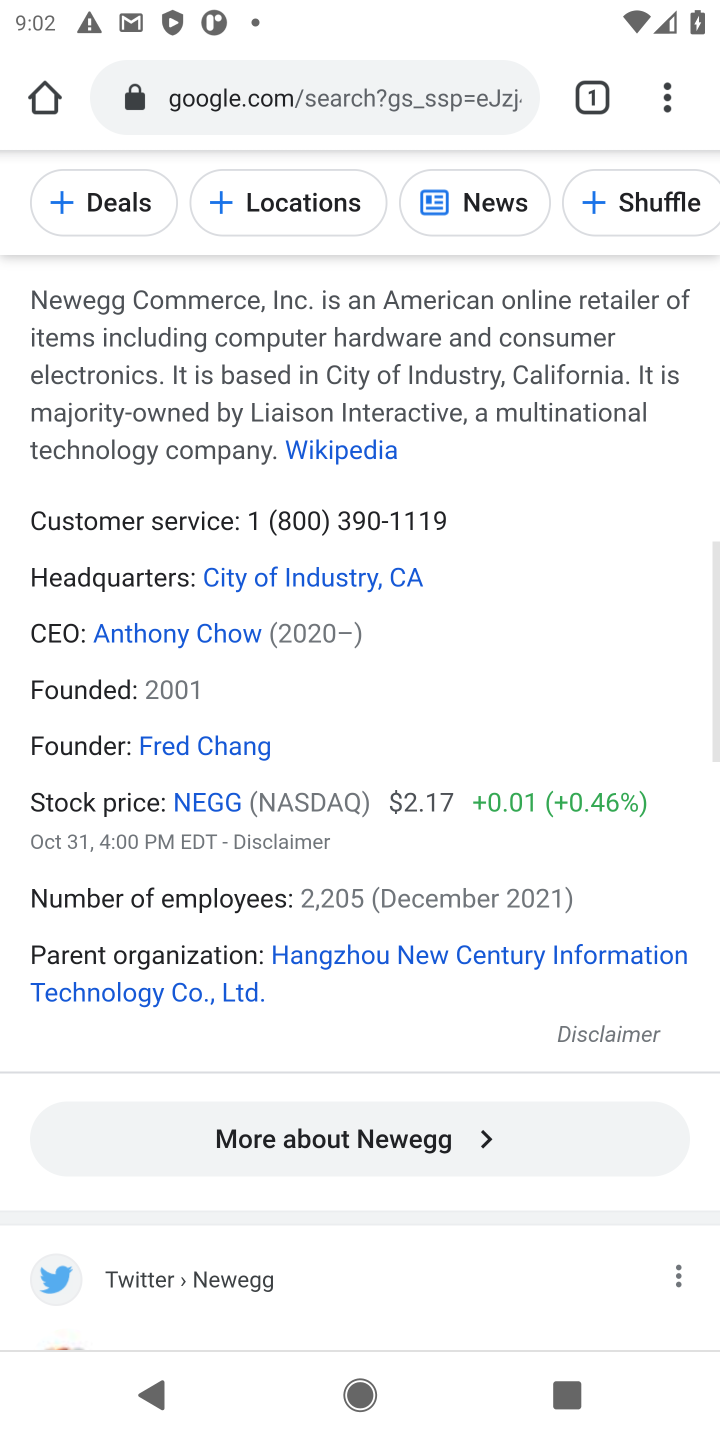
Step 32: drag from (326, 531) to (268, 1113)
Your task to perform on an android device: Add "apple airpods" to the cart on newegg Image 33: 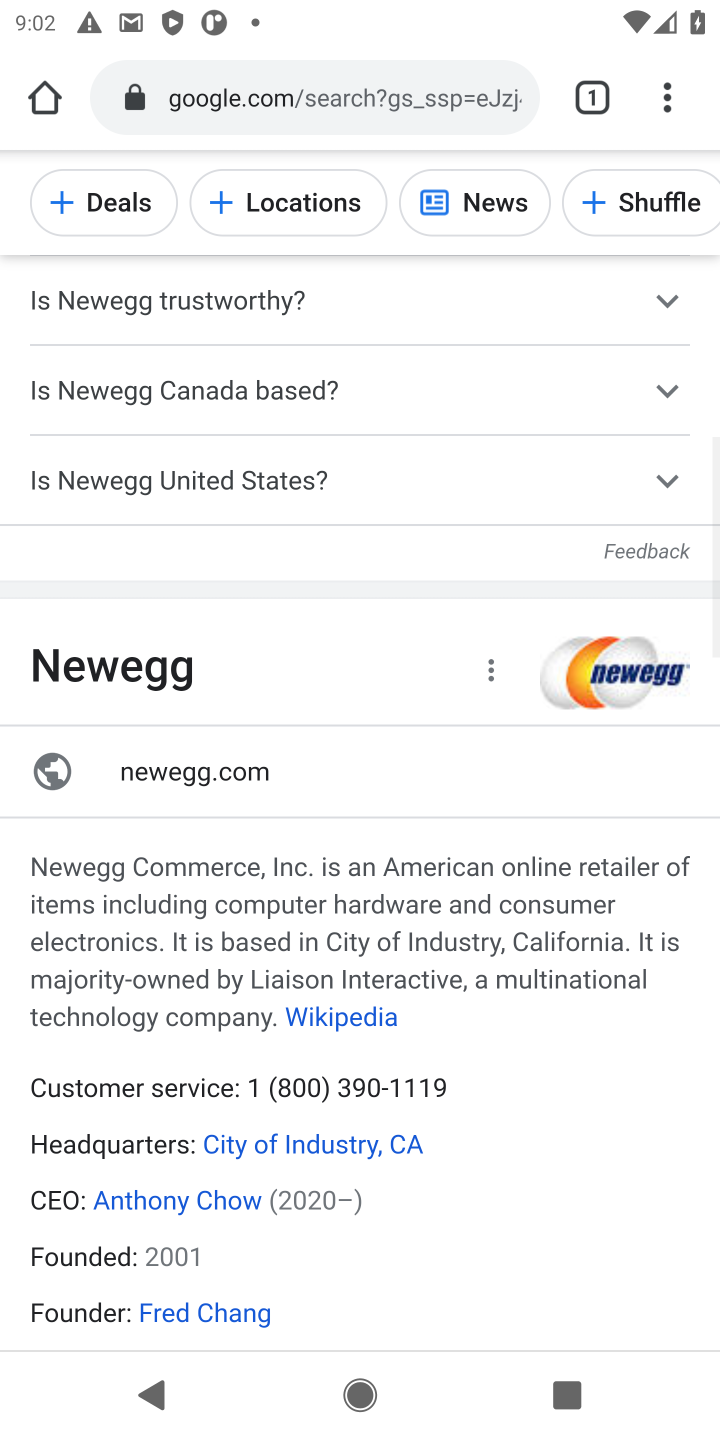
Step 33: drag from (302, 359) to (320, 976)
Your task to perform on an android device: Add "apple airpods" to the cart on newegg Image 34: 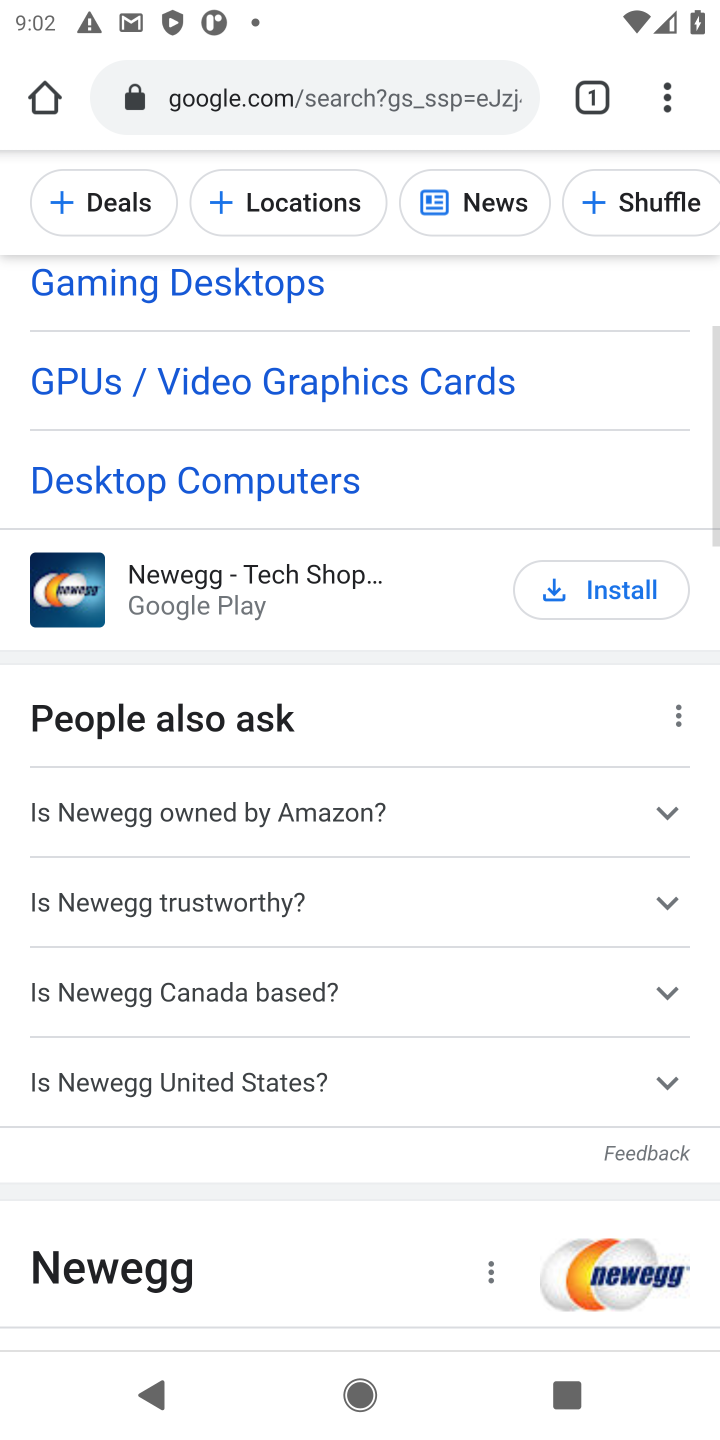
Step 34: drag from (329, 676) to (329, 1076)
Your task to perform on an android device: Add "apple airpods" to the cart on newegg Image 35: 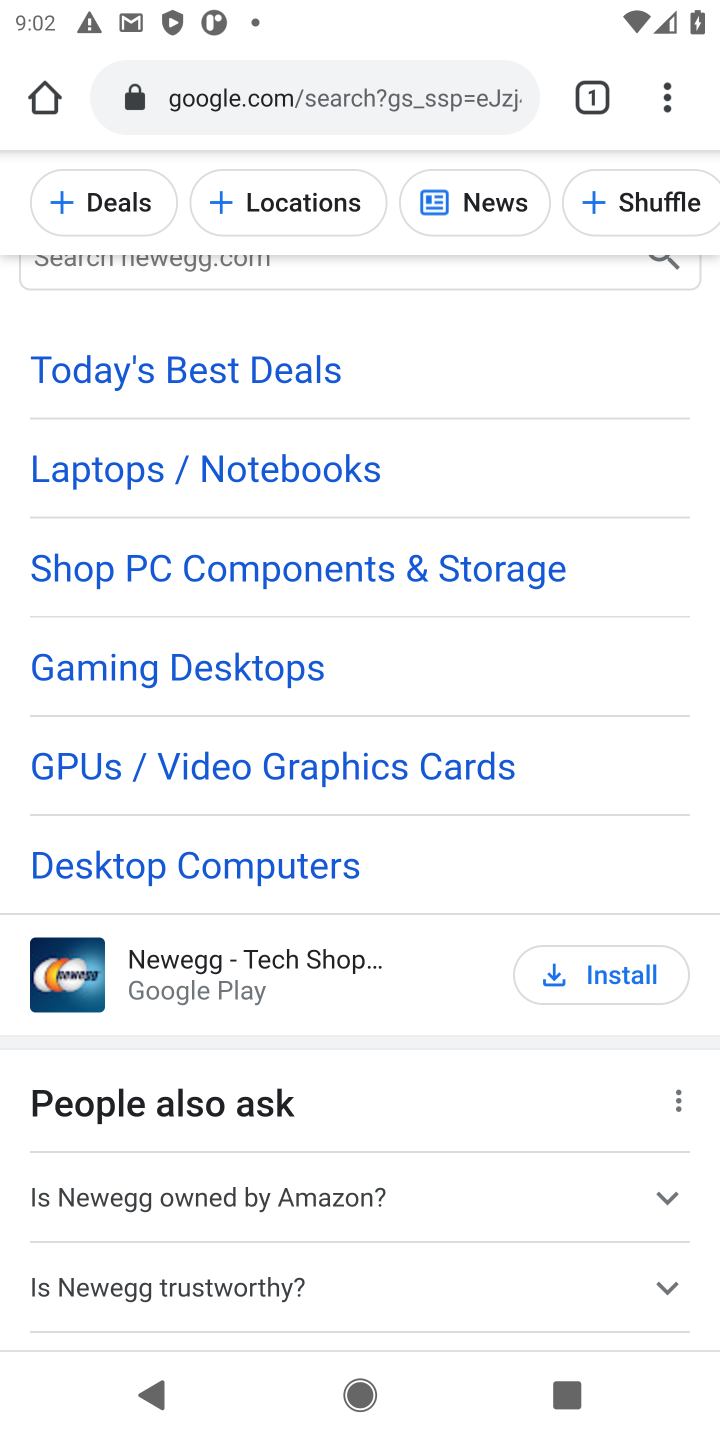
Step 35: click (163, 364)
Your task to perform on an android device: Add "apple airpods" to the cart on newegg Image 36: 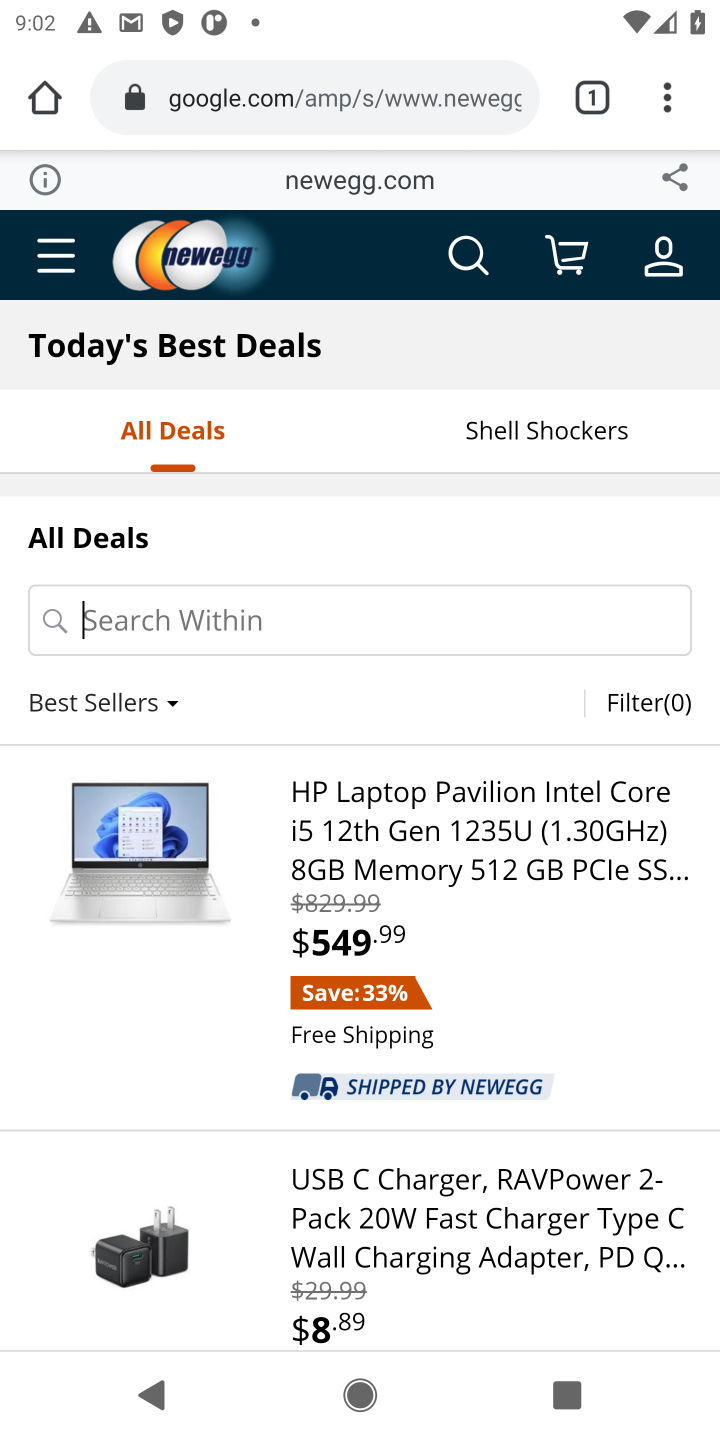
Step 36: type "apple airpods"
Your task to perform on an android device: Add "apple airpods" to the cart on newegg Image 37: 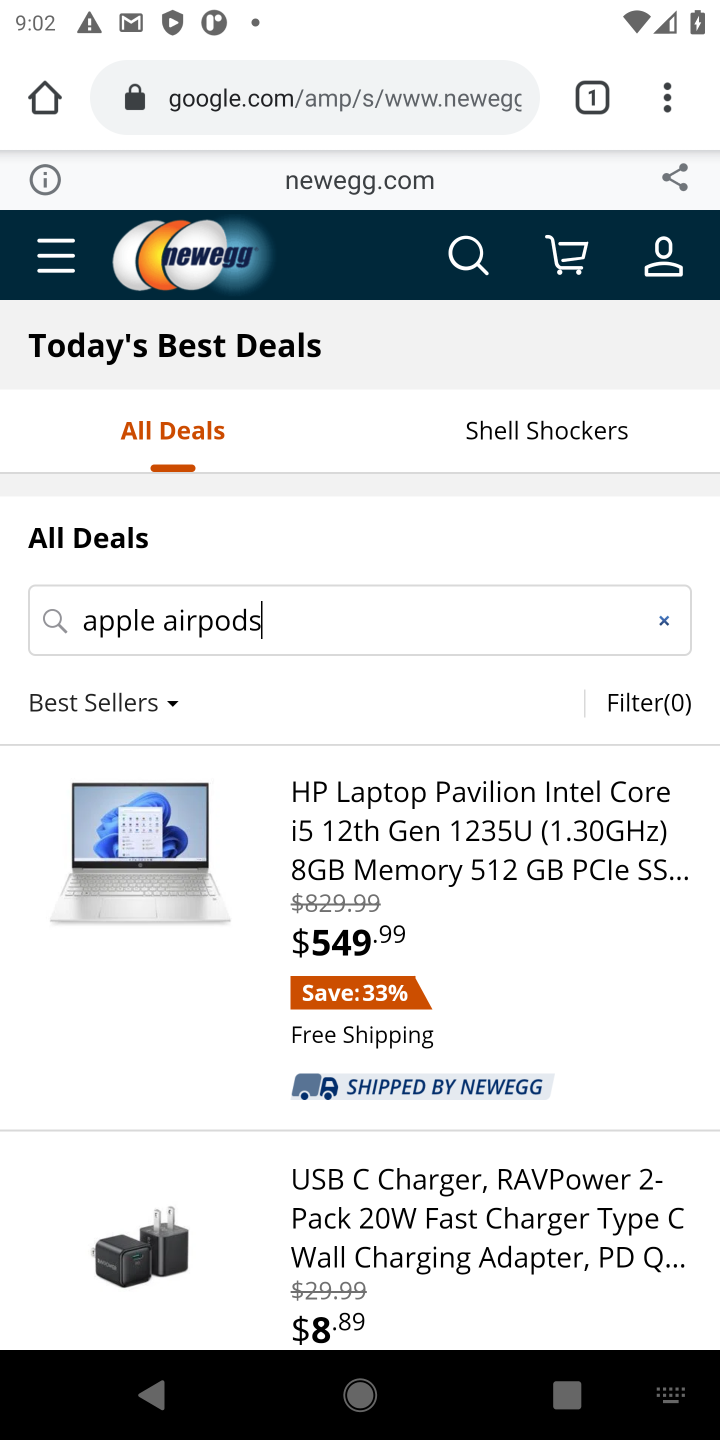
Step 37: click (403, 588)
Your task to perform on an android device: Add "apple airpods" to the cart on newegg Image 38: 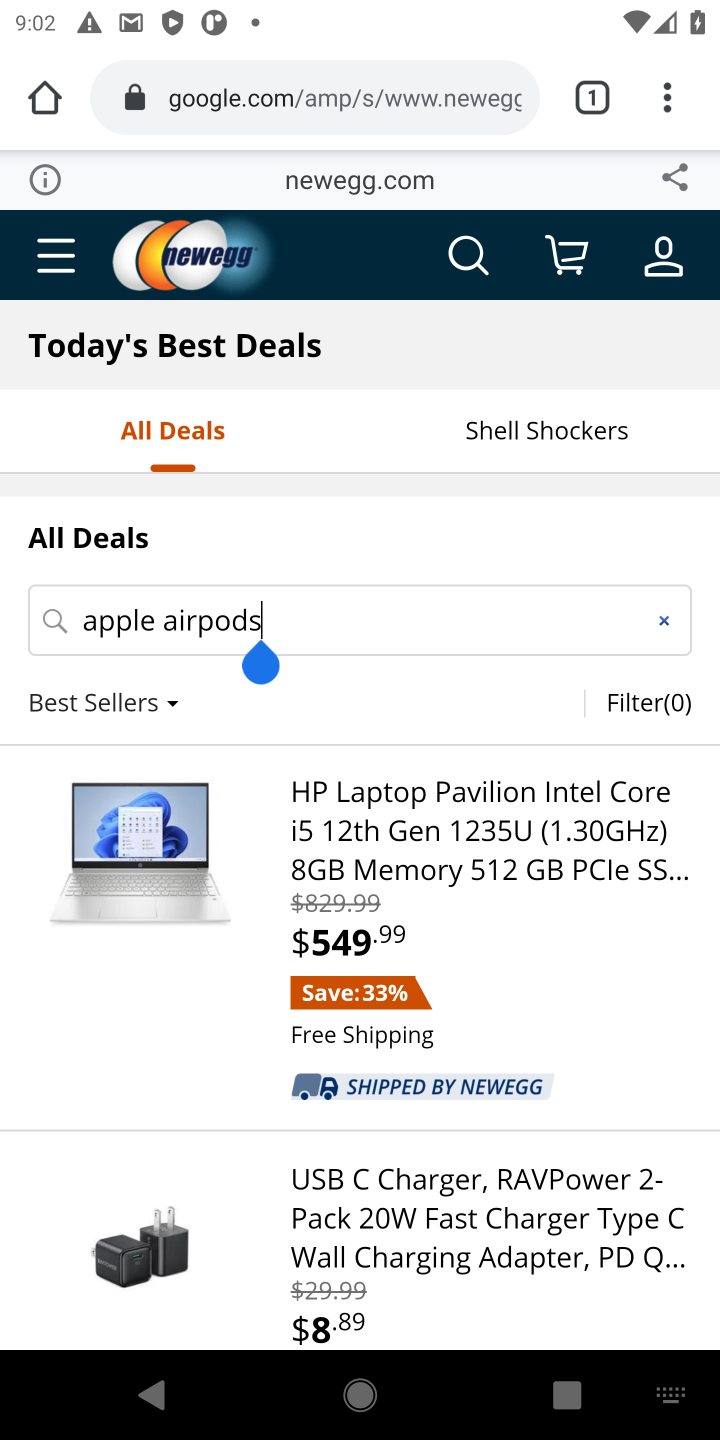
Step 38: drag from (489, 1014) to (449, 572)
Your task to perform on an android device: Add "apple airpods" to the cart on newegg Image 39: 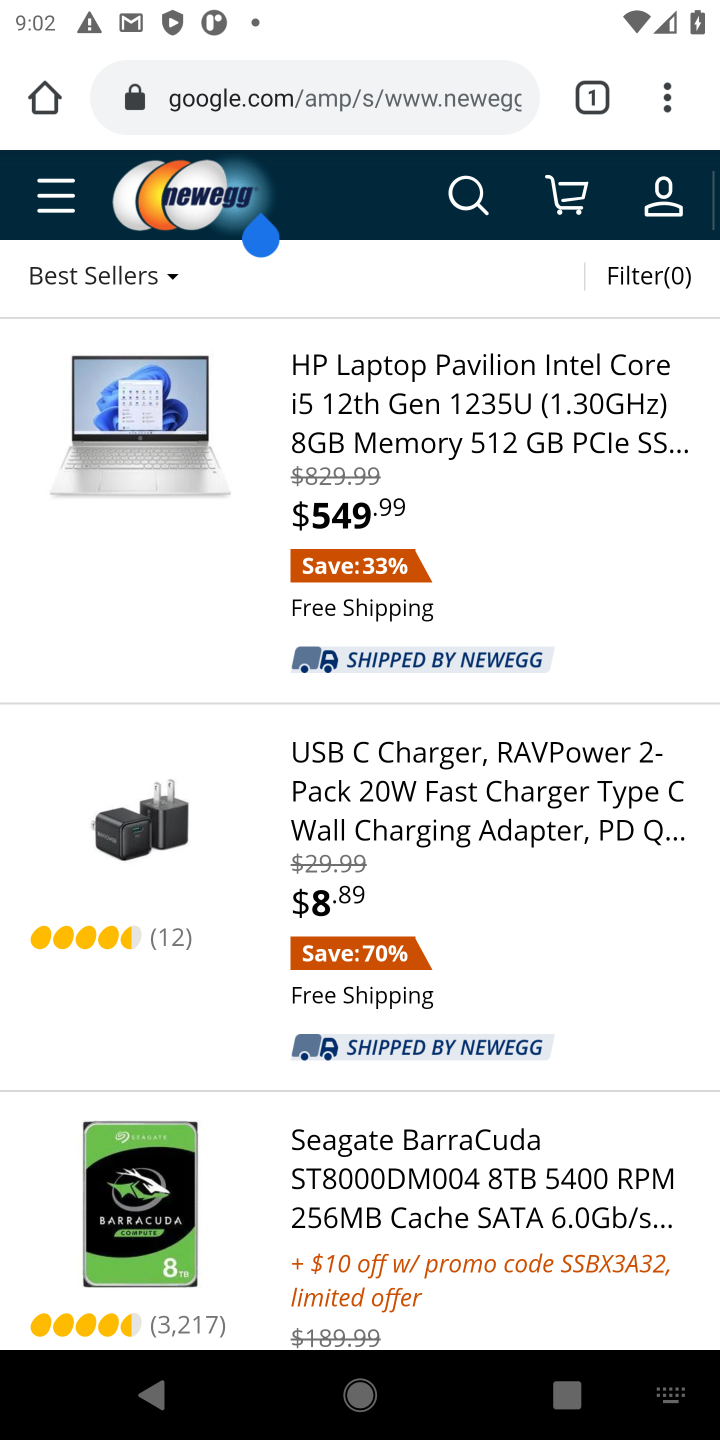
Step 39: drag from (464, 1024) to (529, 1212)
Your task to perform on an android device: Add "apple airpods" to the cart on newegg Image 40: 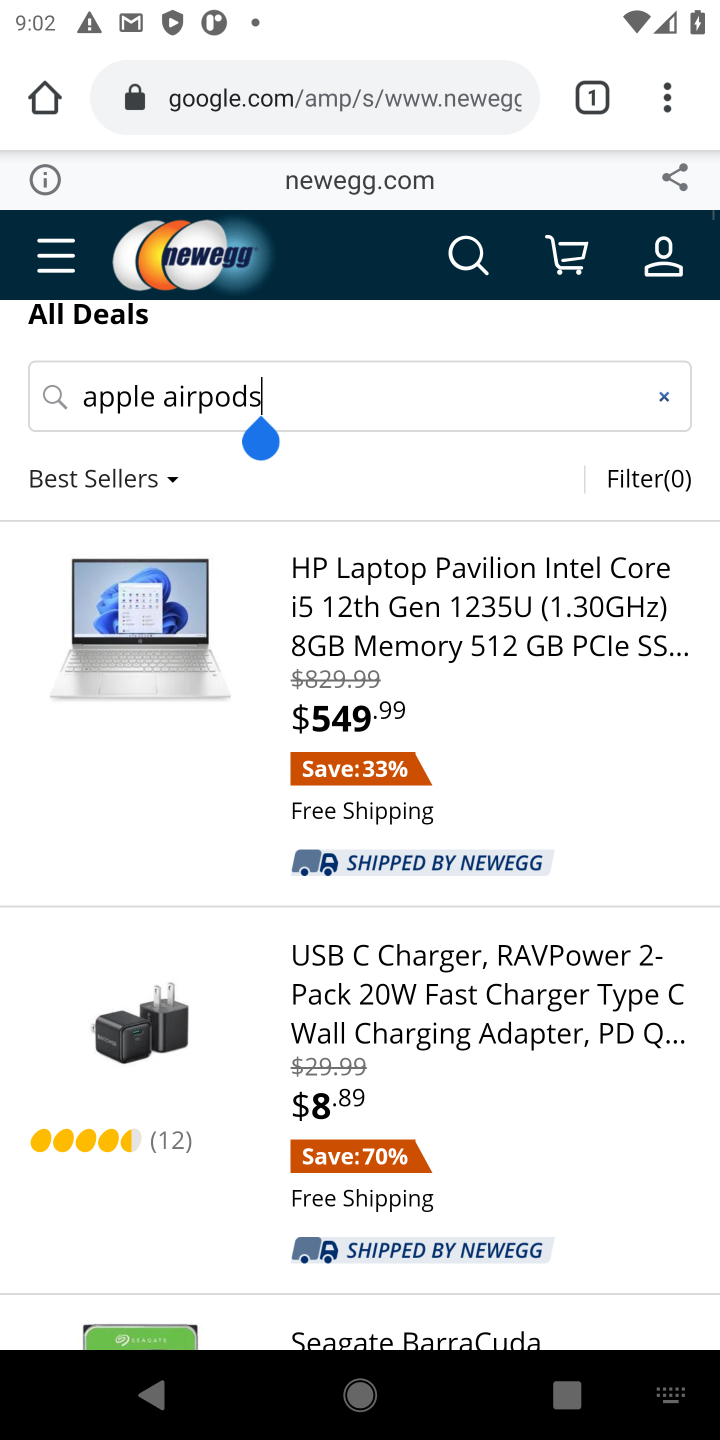
Step 40: drag from (417, 676) to (452, 1264)
Your task to perform on an android device: Add "apple airpods" to the cart on newegg Image 41: 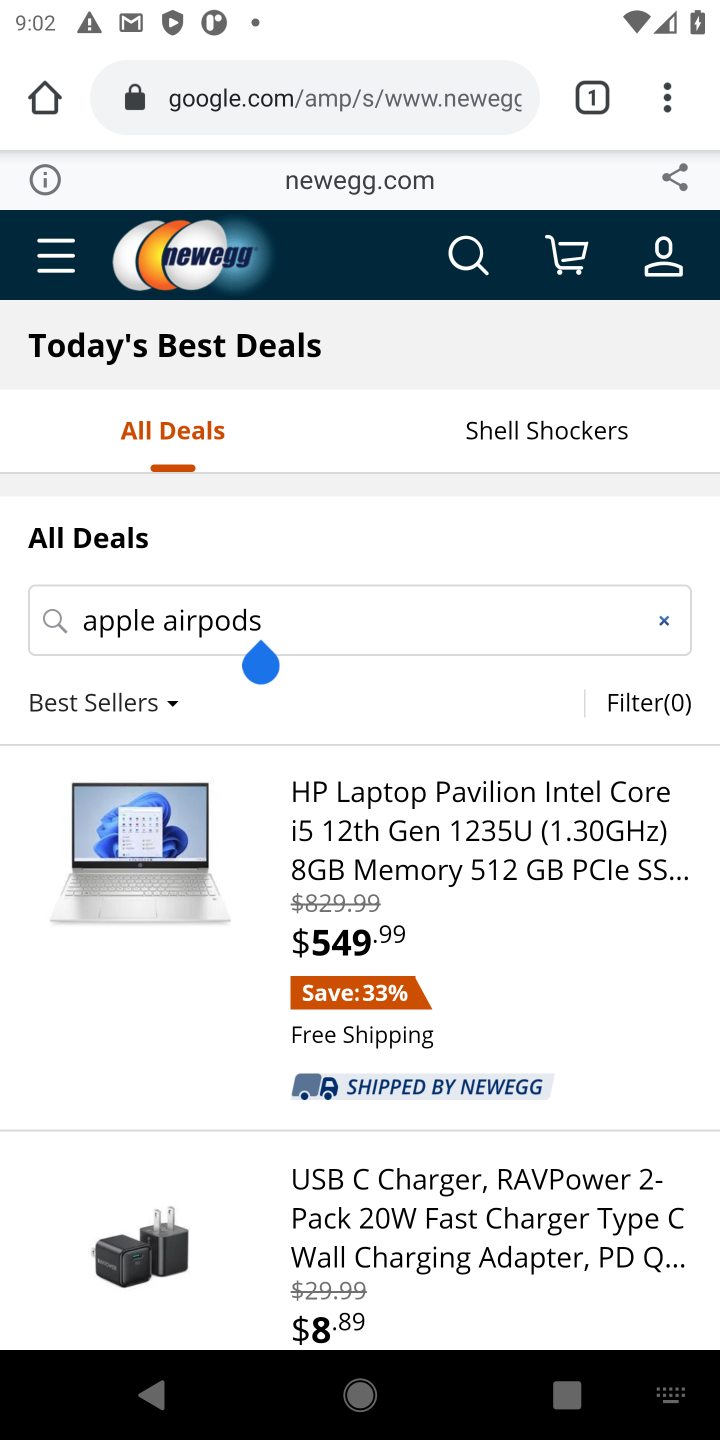
Step 41: drag from (227, 803) to (271, 1203)
Your task to perform on an android device: Add "apple airpods" to the cart on newegg Image 42: 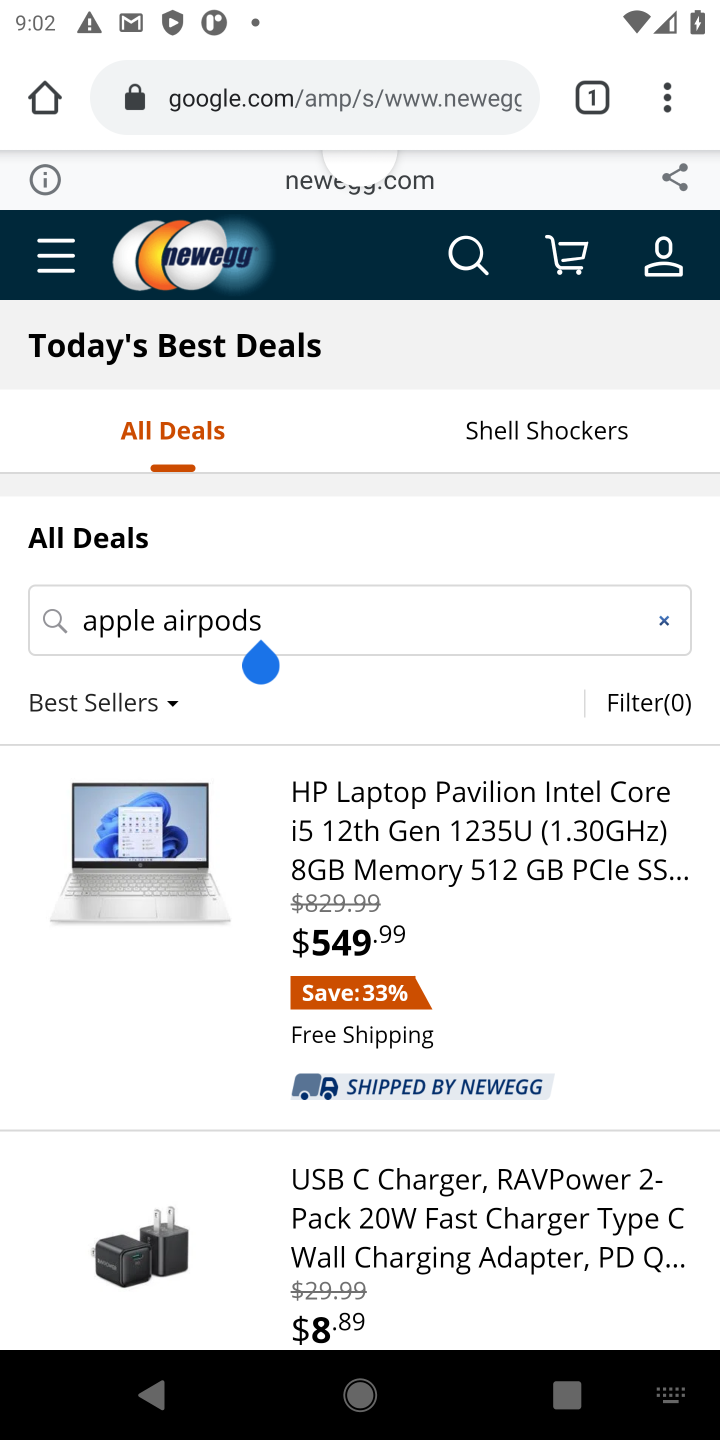
Step 42: click (335, 619)
Your task to perform on an android device: Add "apple airpods" to the cart on newegg Image 43: 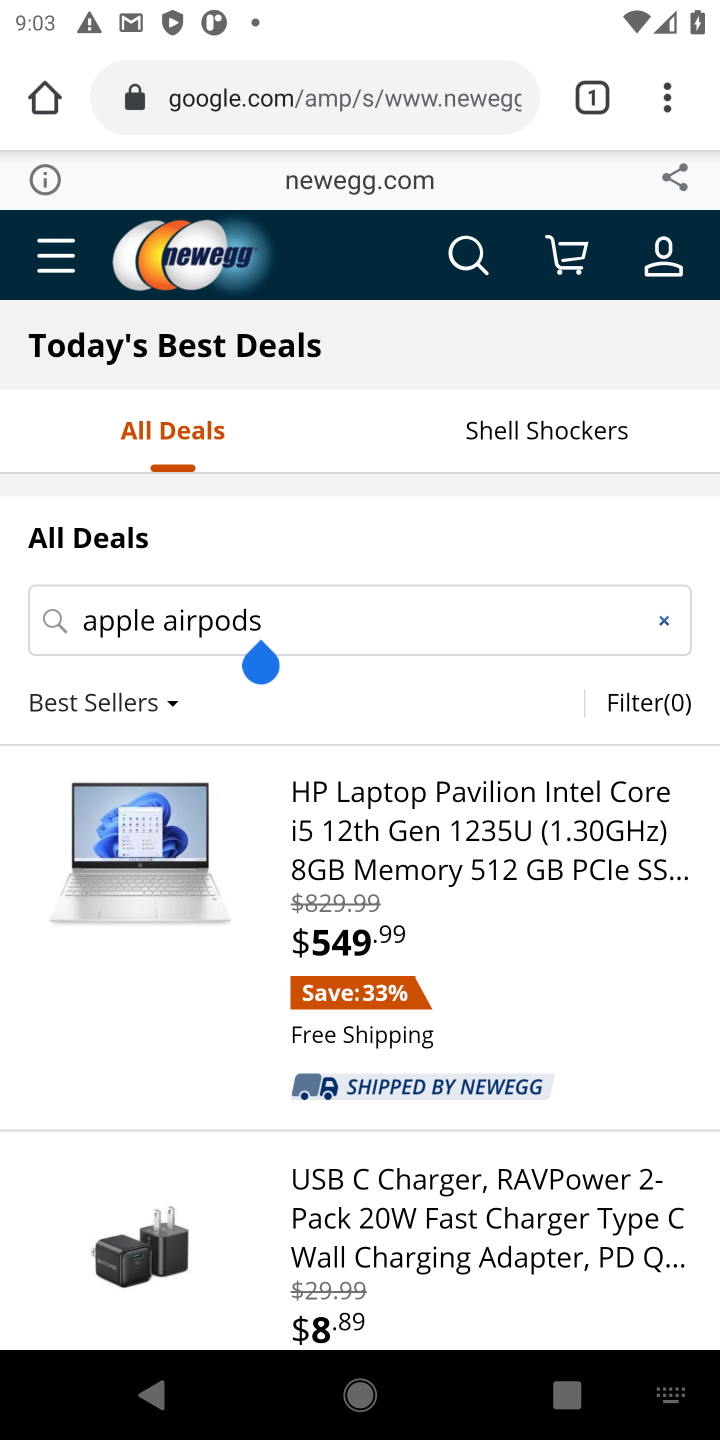
Step 43: type ""
Your task to perform on an android device: Add "apple airpods" to the cart on newegg Image 44: 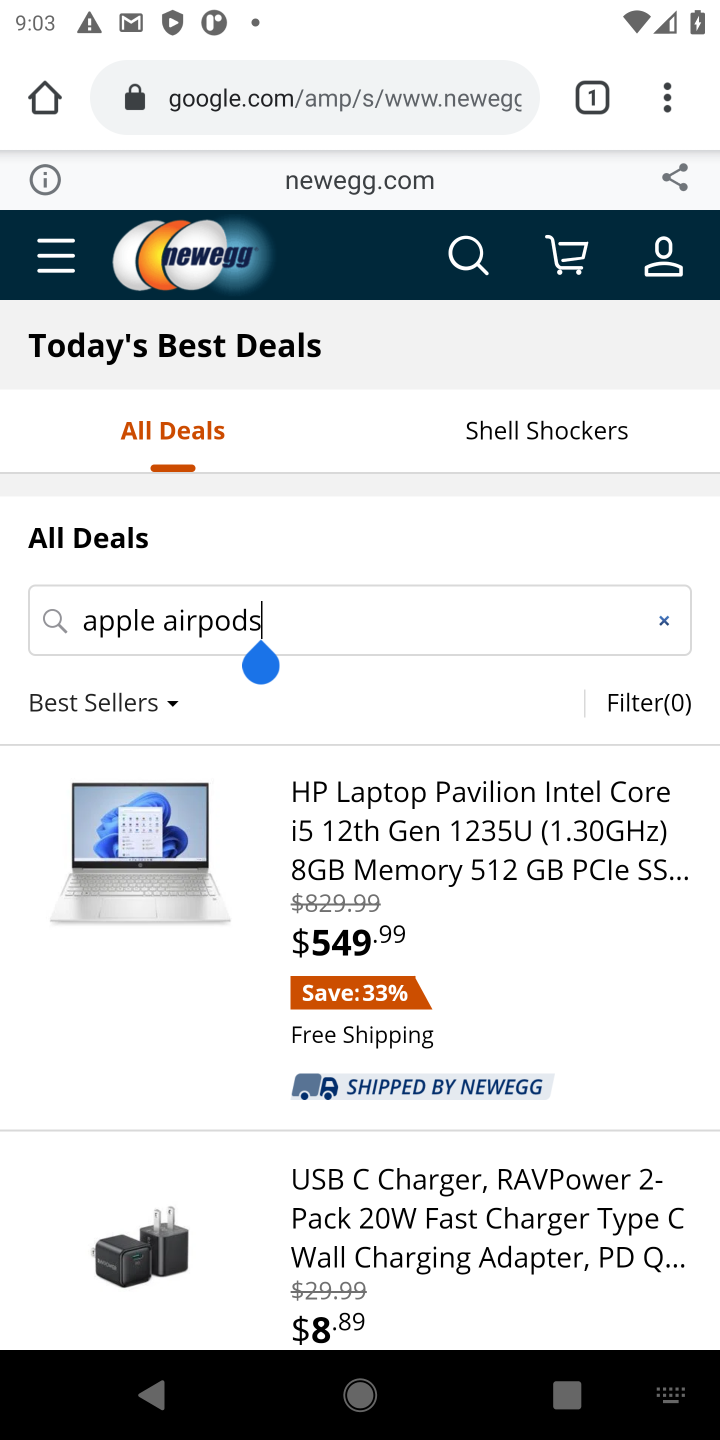
Step 44: click (53, 625)
Your task to perform on an android device: Add "apple airpods" to the cart on newegg Image 45: 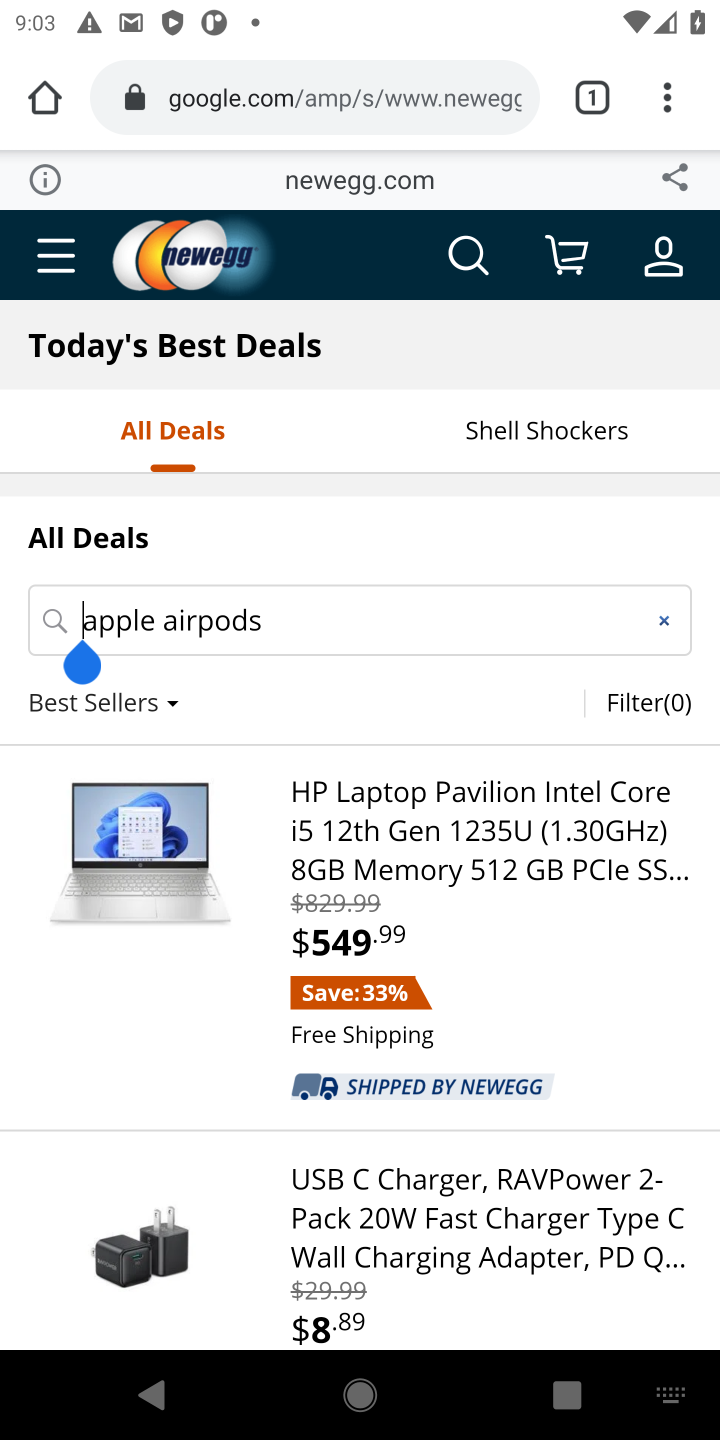
Step 45: drag from (359, 965) to (241, 706)
Your task to perform on an android device: Add "apple airpods" to the cart on newegg Image 46: 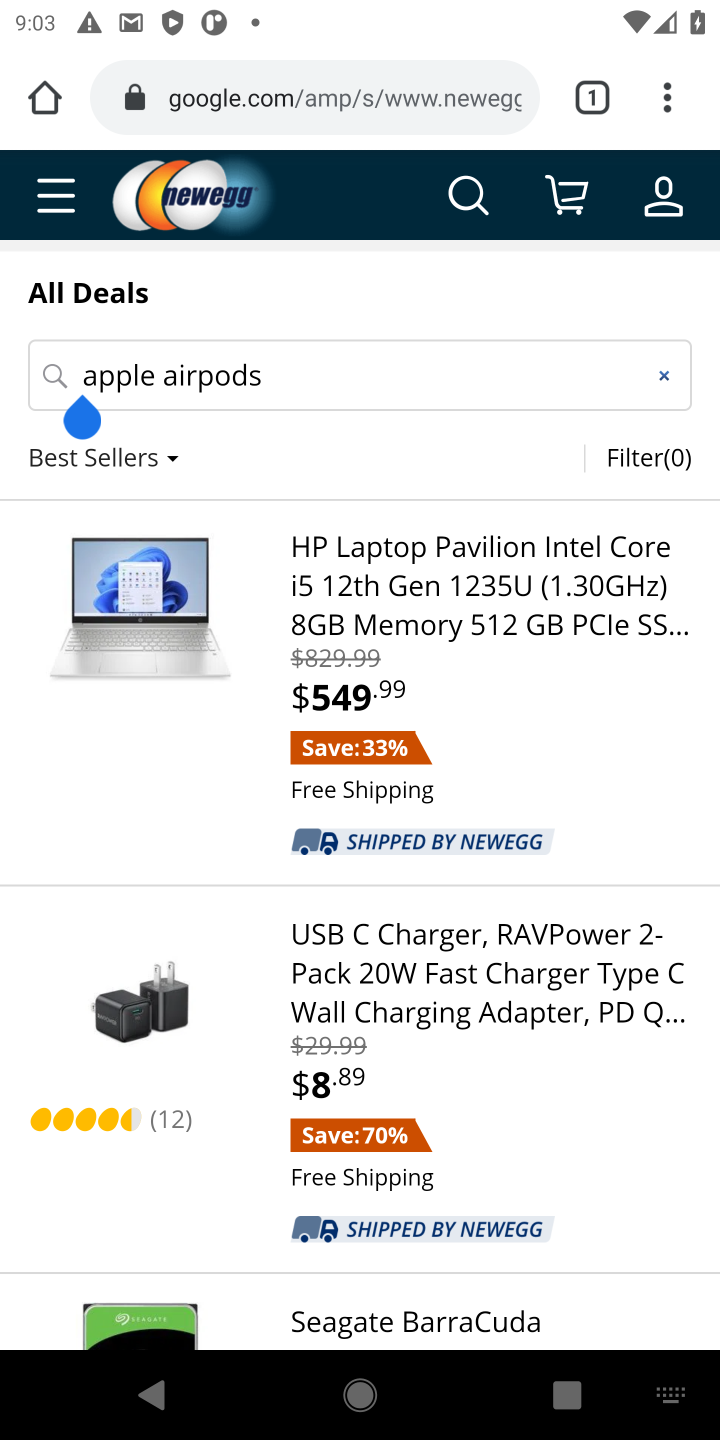
Step 46: click (277, 367)
Your task to perform on an android device: Add "apple airpods" to the cart on newegg Image 47: 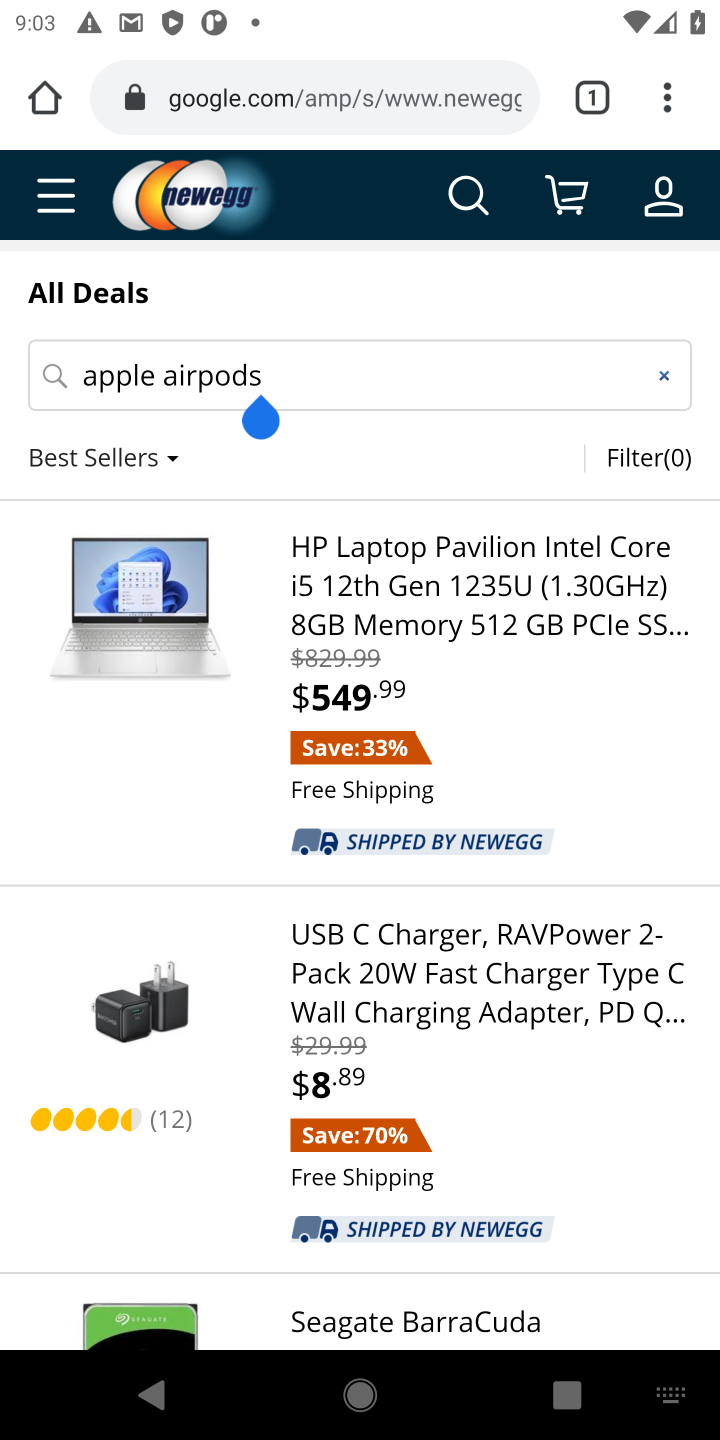
Step 47: click (262, 383)
Your task to perform on an android device: Add "apple airpods" to the cart on newegg Image 48: 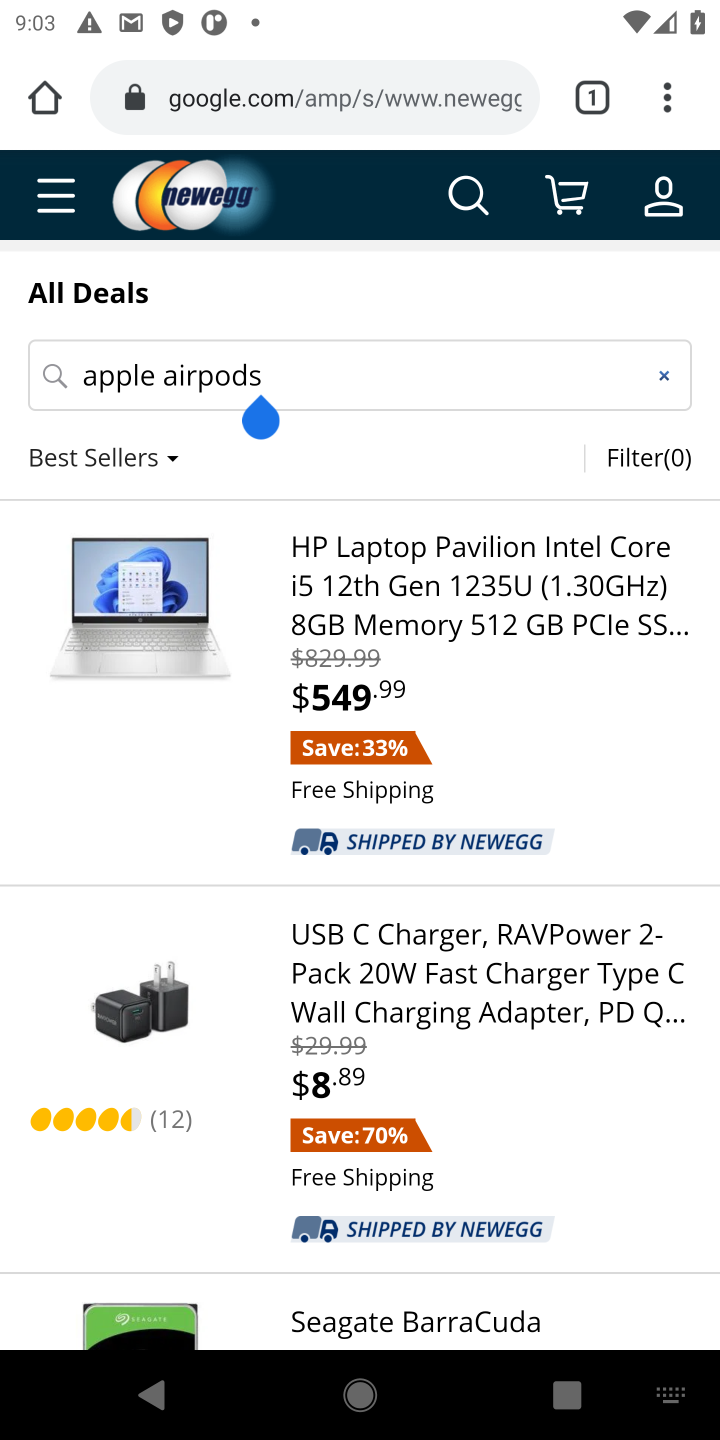
Step 48: type ""
Your task to perform on an android device: Add "apple airpods" to the cart on newegg Image 49: 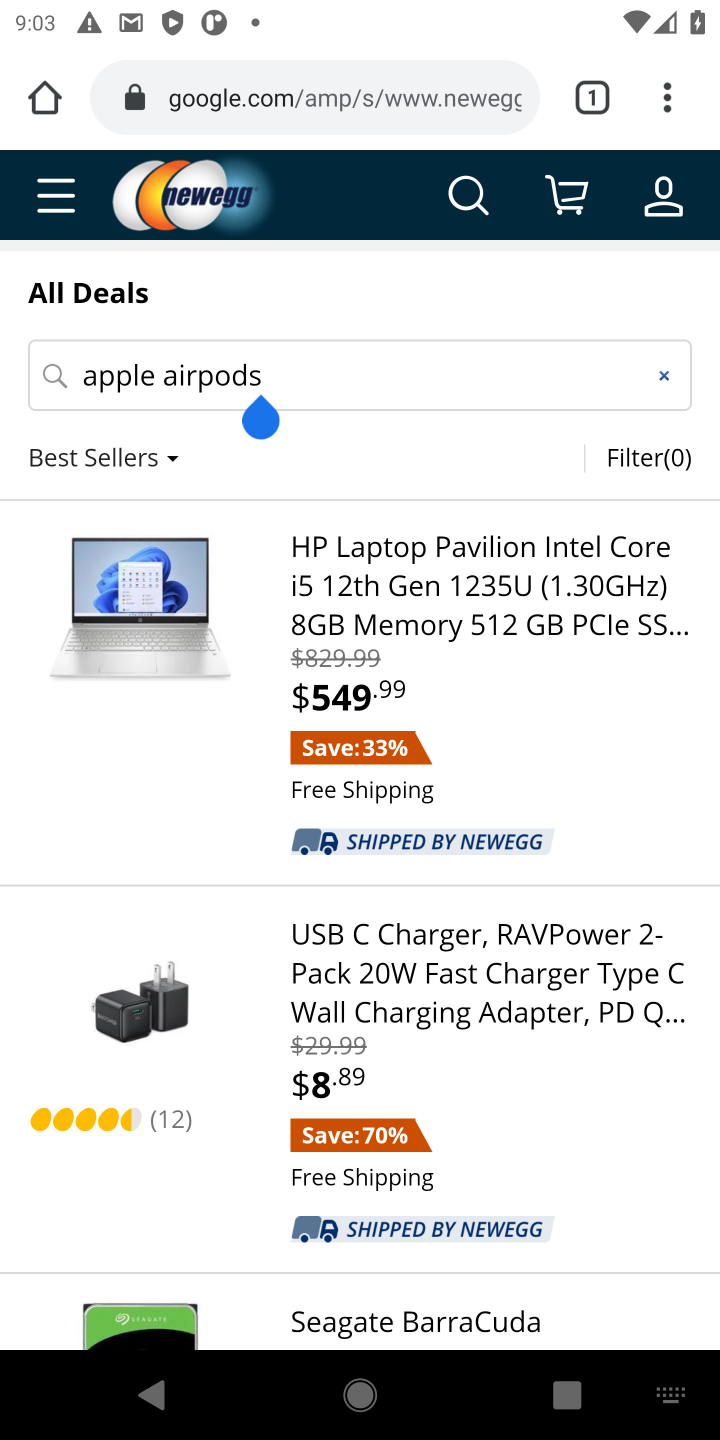
Step 49: task complete